Your task to perform on an android device: Add logitech g pro to the cart on amazon.com Image 0: 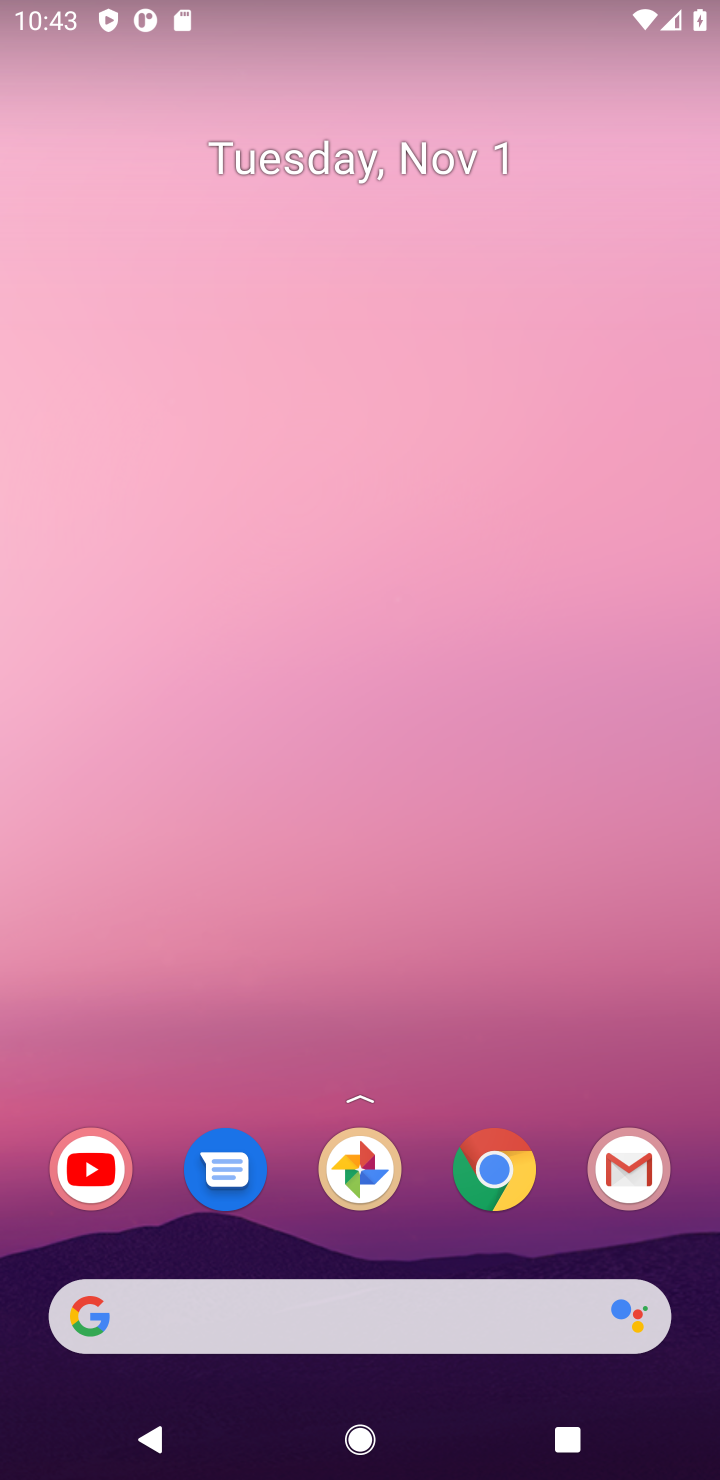
Step 0: click (488, 1163)
Your task to perform on an android device: Add logitech g pro to the cart on amazon.com Image 1: 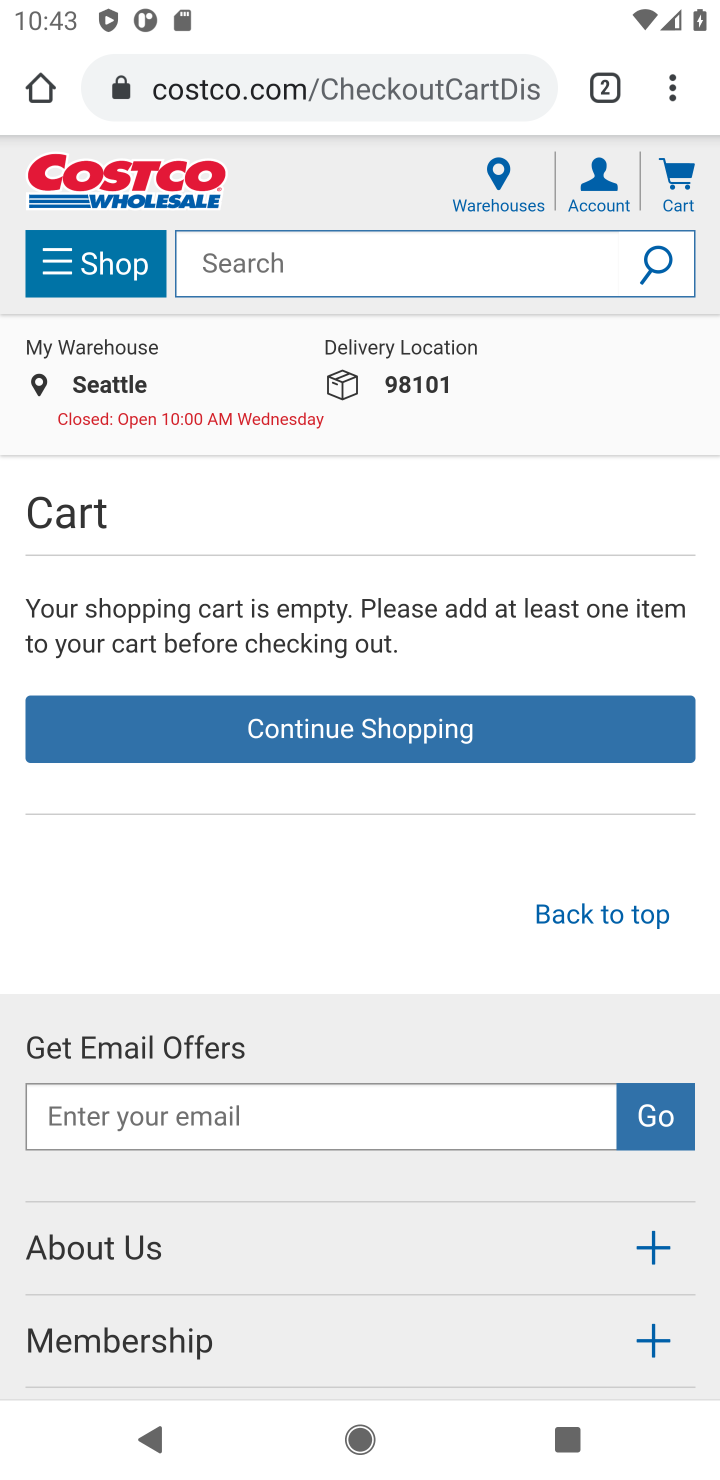
Step 1: click (457, 69)
Your task to perform on an android device: Add logitech g pro to the cart on amazon.com Image 2: 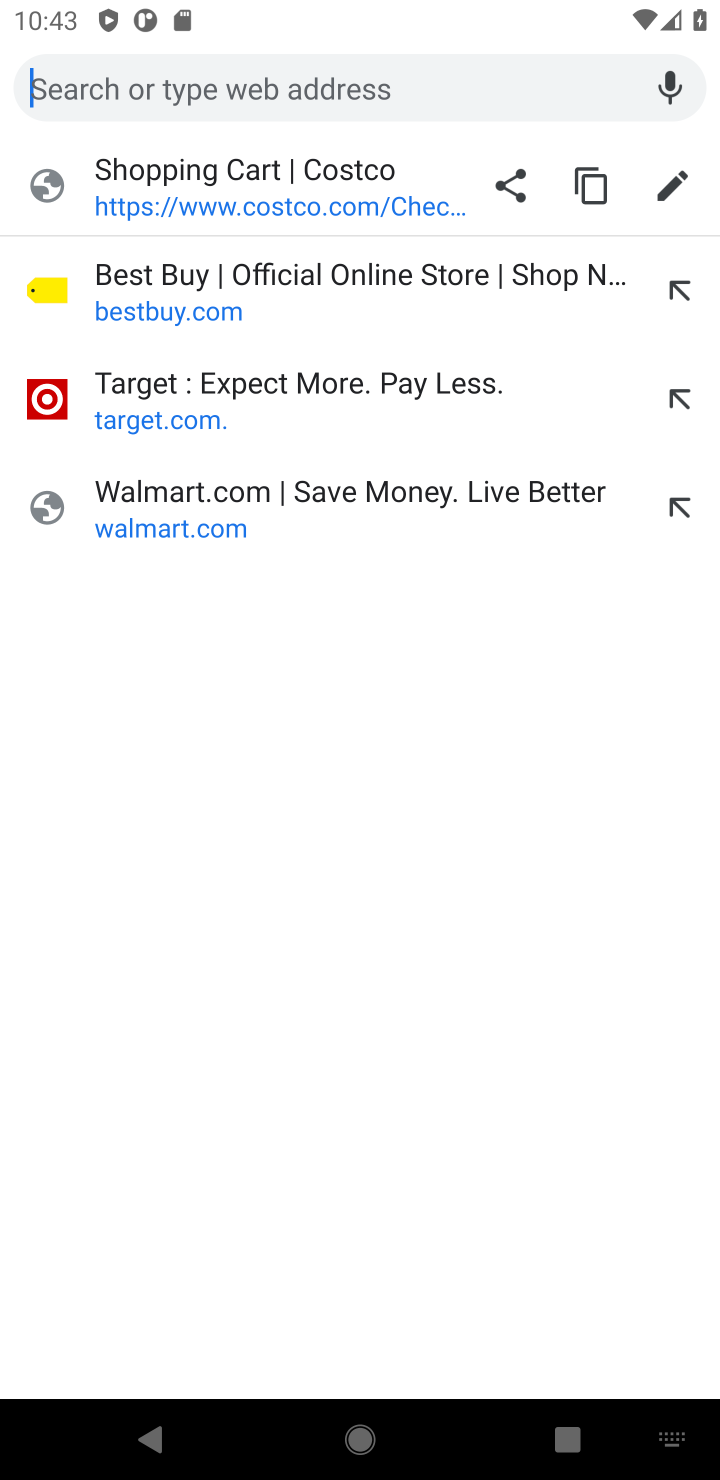
Step 2: type "amazon.com"
Your task to perform on an android device: Add logitech g pro to the cart on amazon.com Image 3: 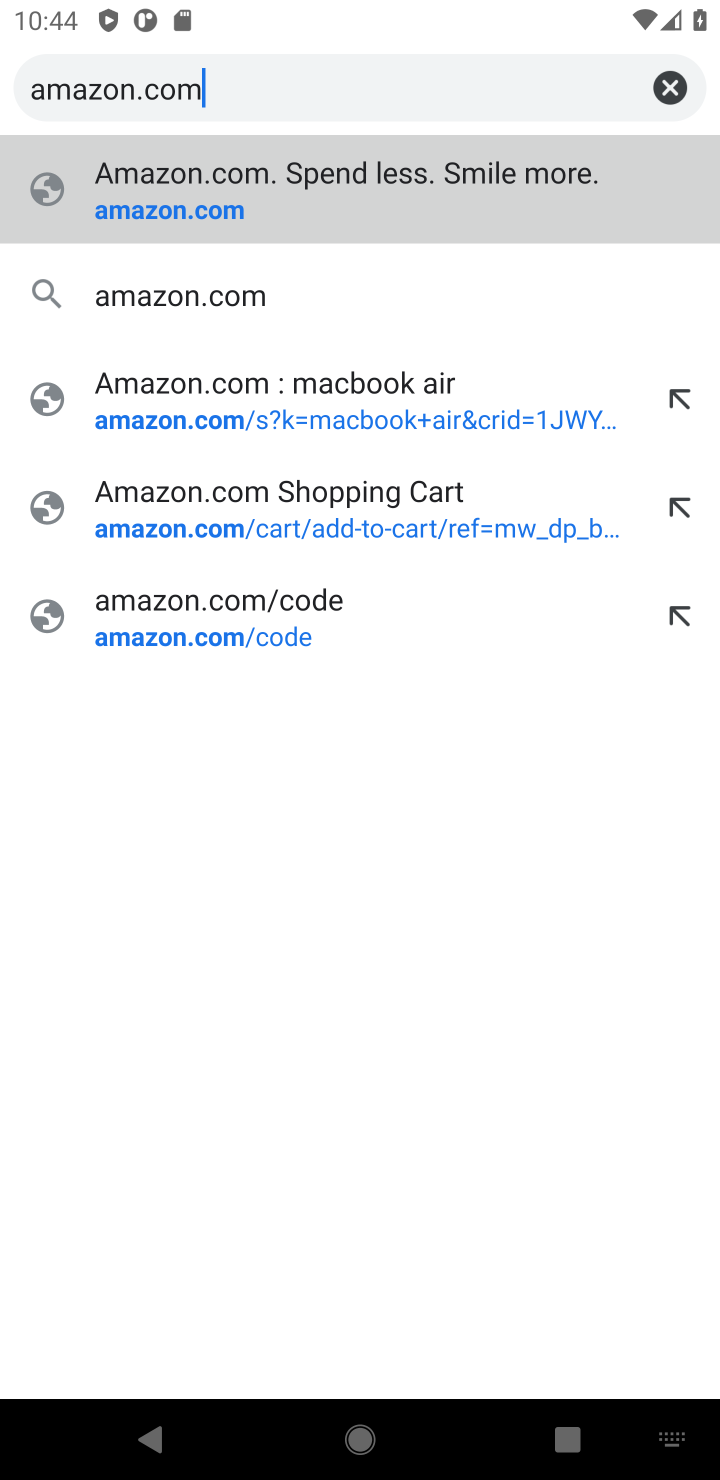
Step 3: click (228, 296)
Your task to perform on an android device: Add logitech g pro to the cart on amazon.com Image 4: 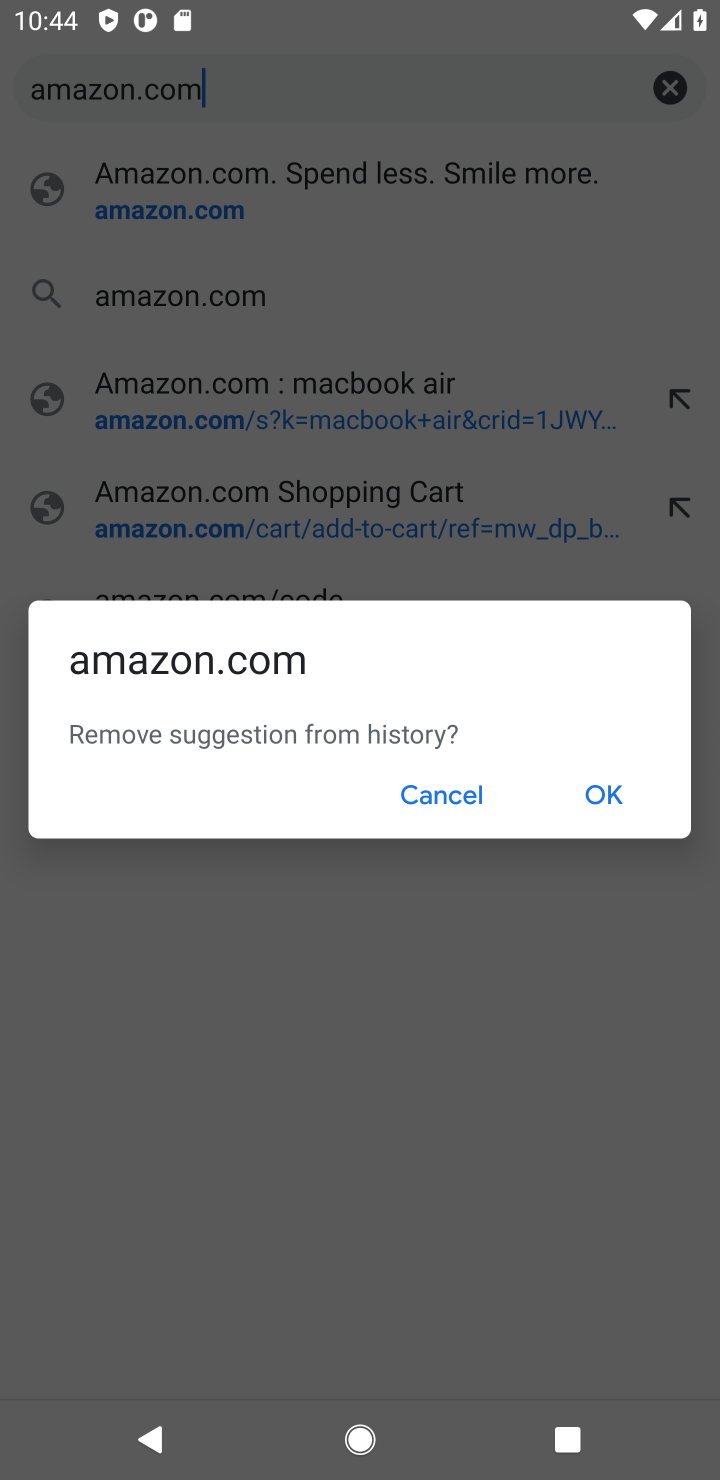
Step 4: click (584, 993)
Your task to perform on an android device: Add logitech g pro to the cart on amazon.com Image 5: 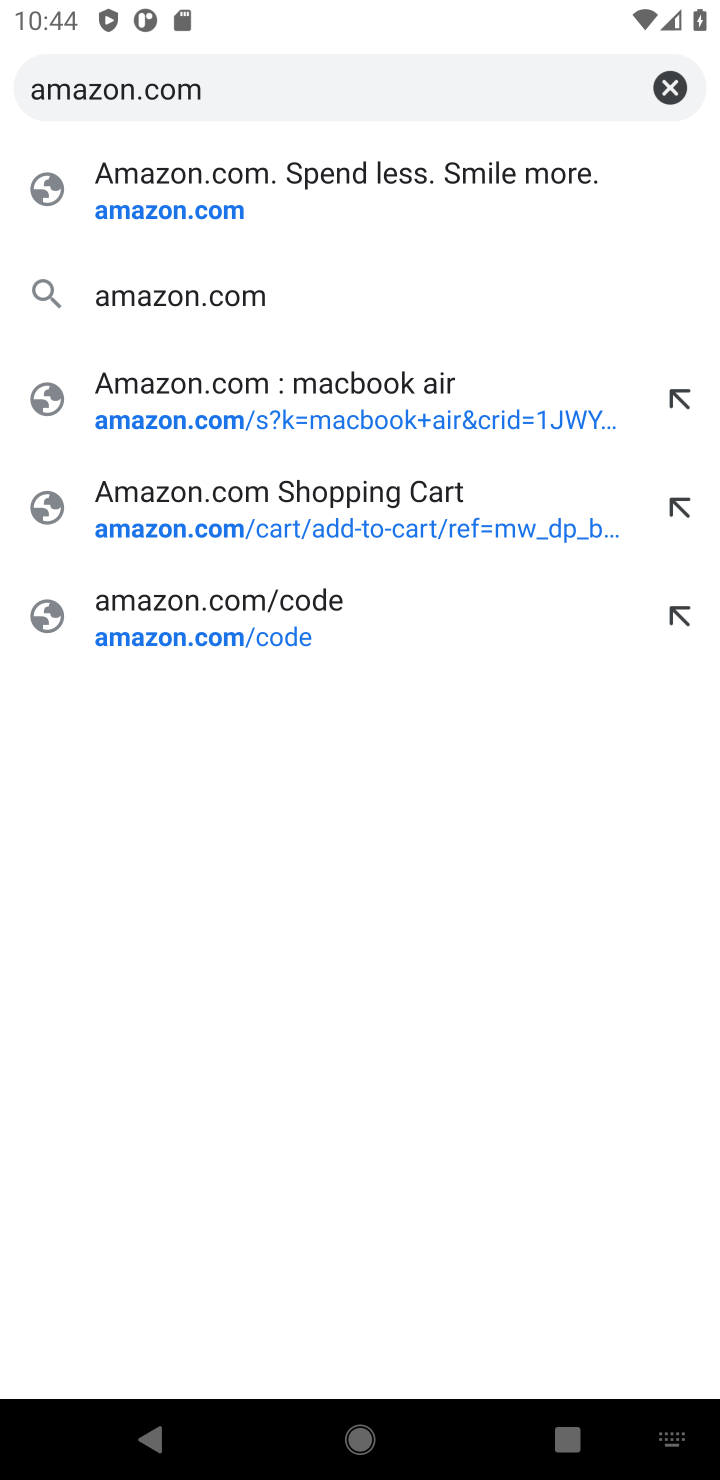
Step 5: click (239, 286)
Your task to perform on an android device: Add logitech g pro to the cart on amazon.com Image 6: 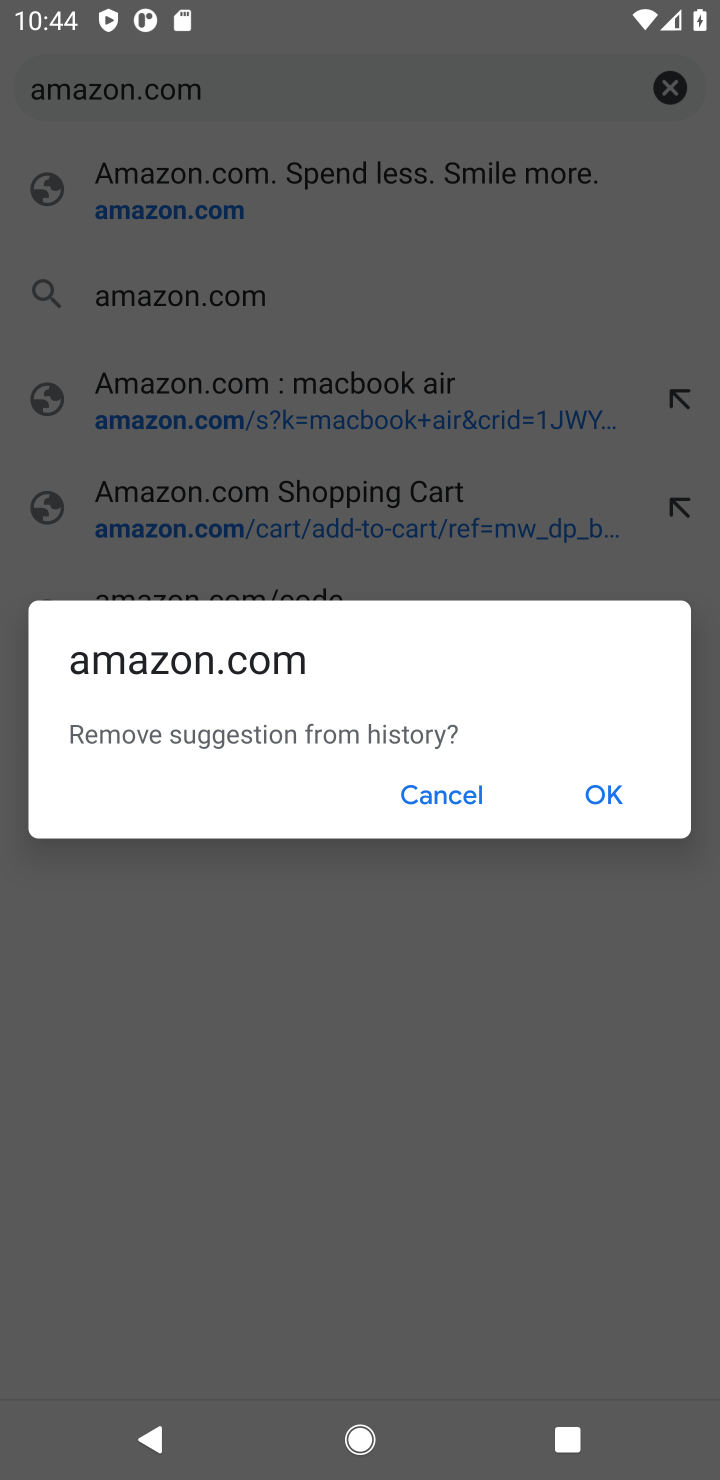
Step 6: click (615, 791)
Your task to perform on an android device: Add logitech g pro to the cart on amazon.com Image 7: 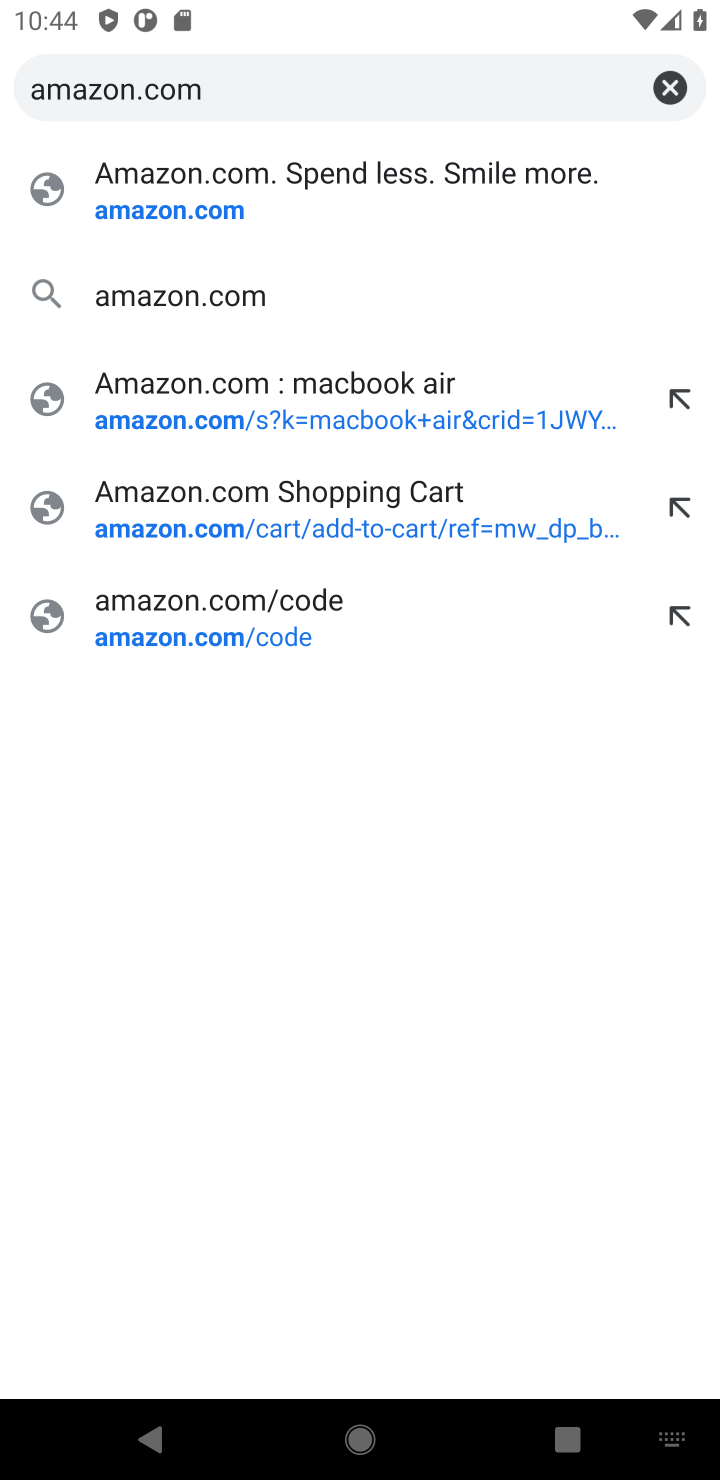
Step 7: click (226, 287)
Your task to perform on an android device: Add logitech g pro to the cart on amazon.com Image 8: 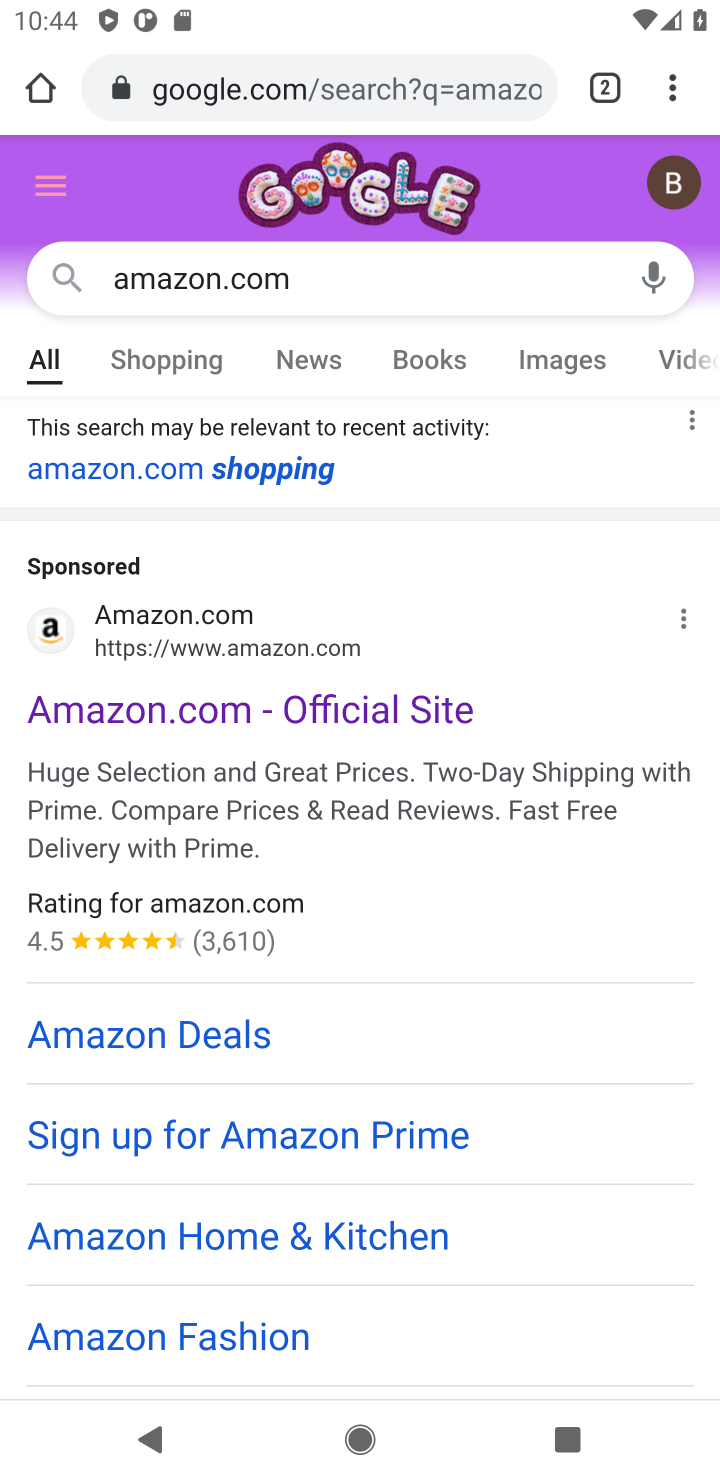
Step 8: drag from (509, 1023) to (463, 533)
Your task to perform on an android device: Add logitech g pro to the cart on amazon.com Image 9: 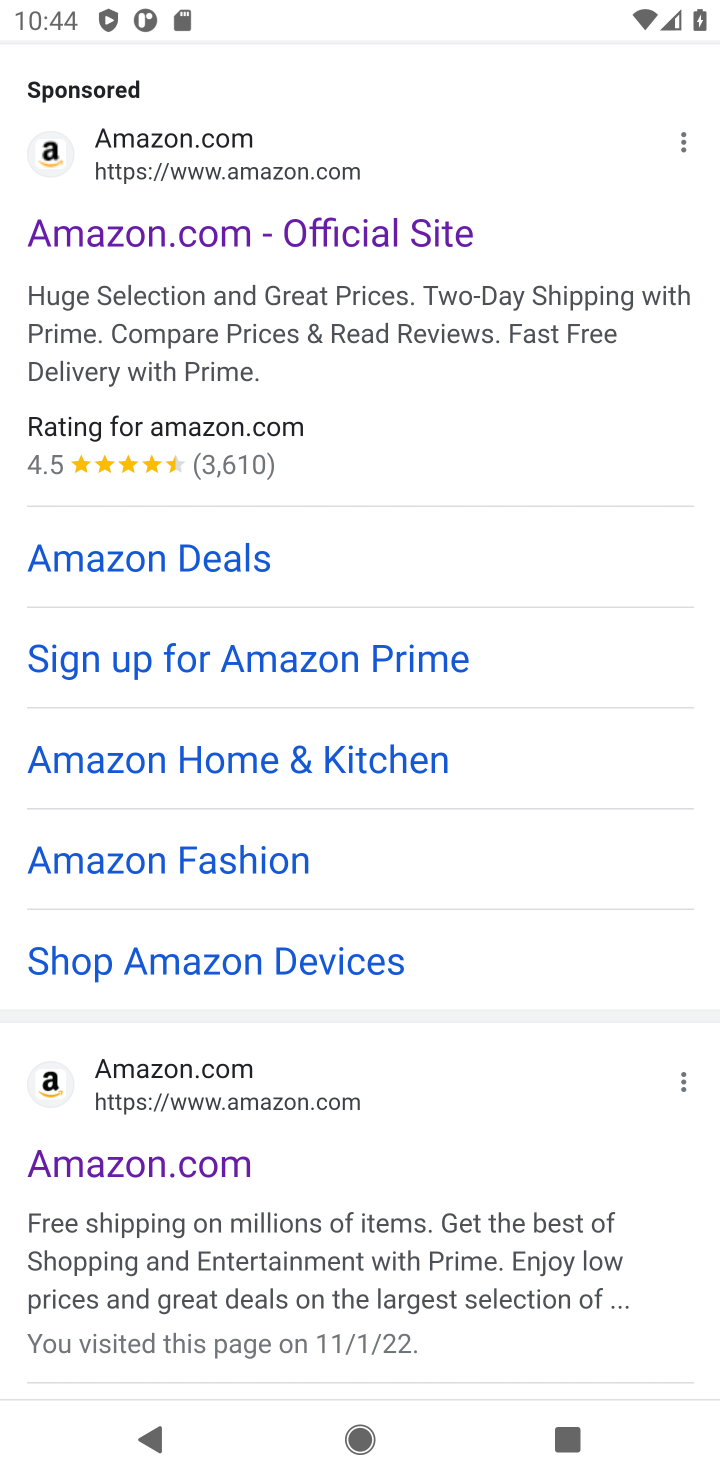
Step 9: click (222, 1083)
Your task to perform on an android device: Add logitech g pro to the cart on amazon.com Image 10: 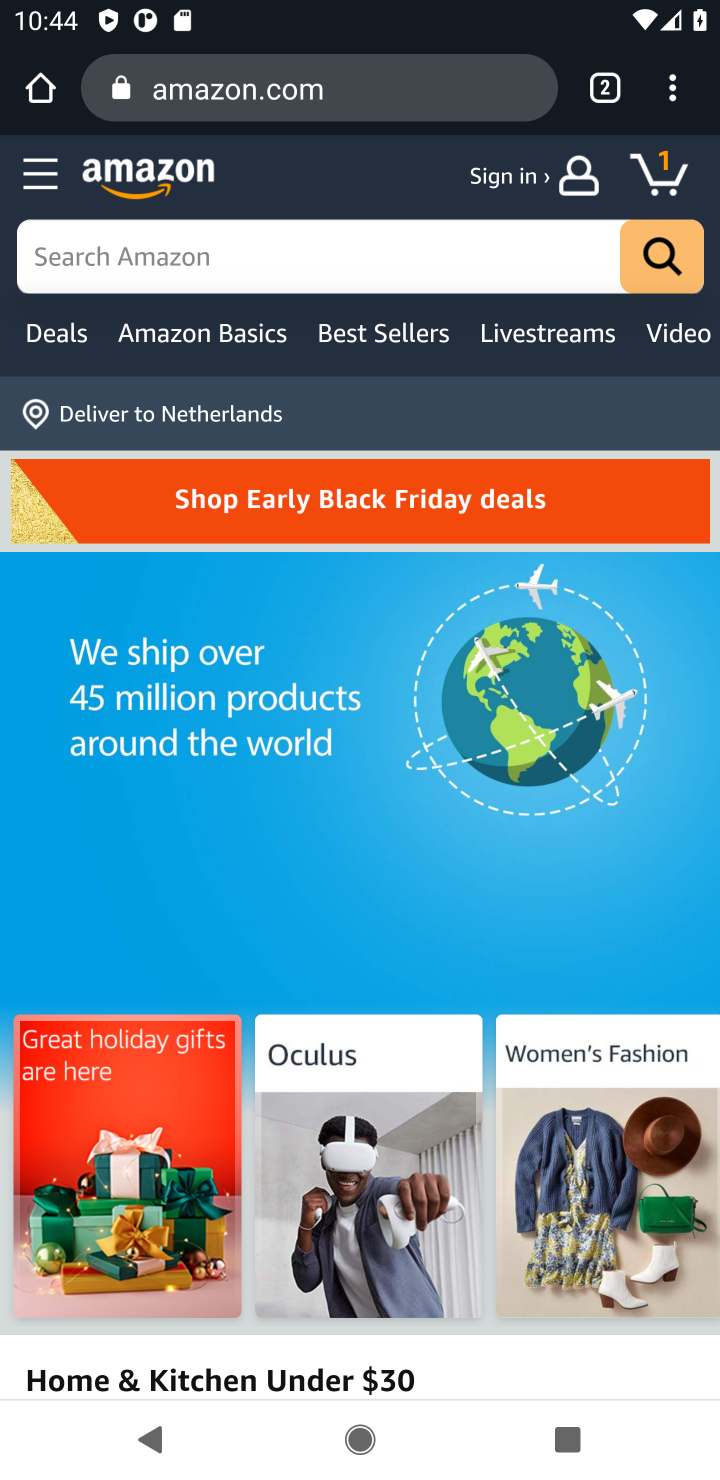
Step 10: click (263, 270)
Your task to perform on an android device: Add logitech g pro to the cart on amazon.com Image 11: 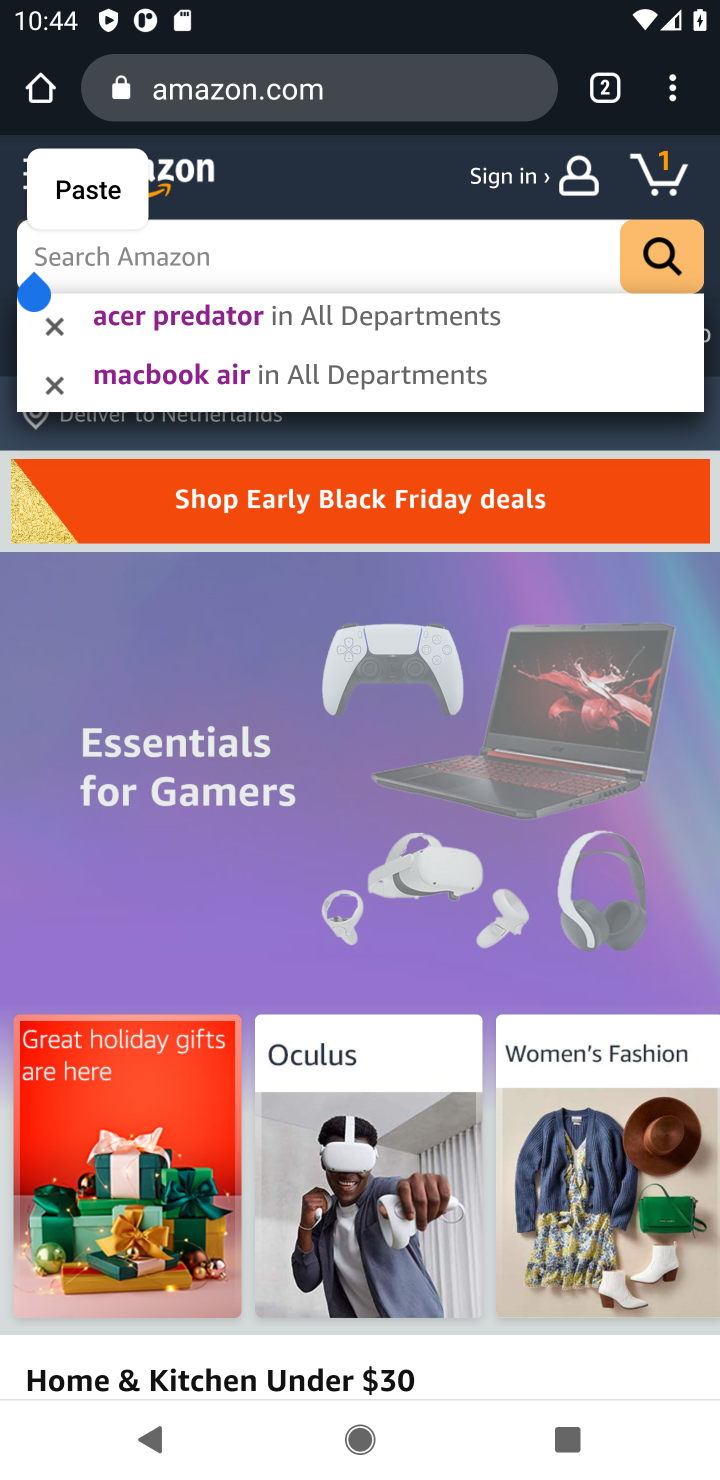
Step 11: type " logitech g pro"
Your task to perform on an android device: Add logitech g pro to the cart on amazon.com Image 12: 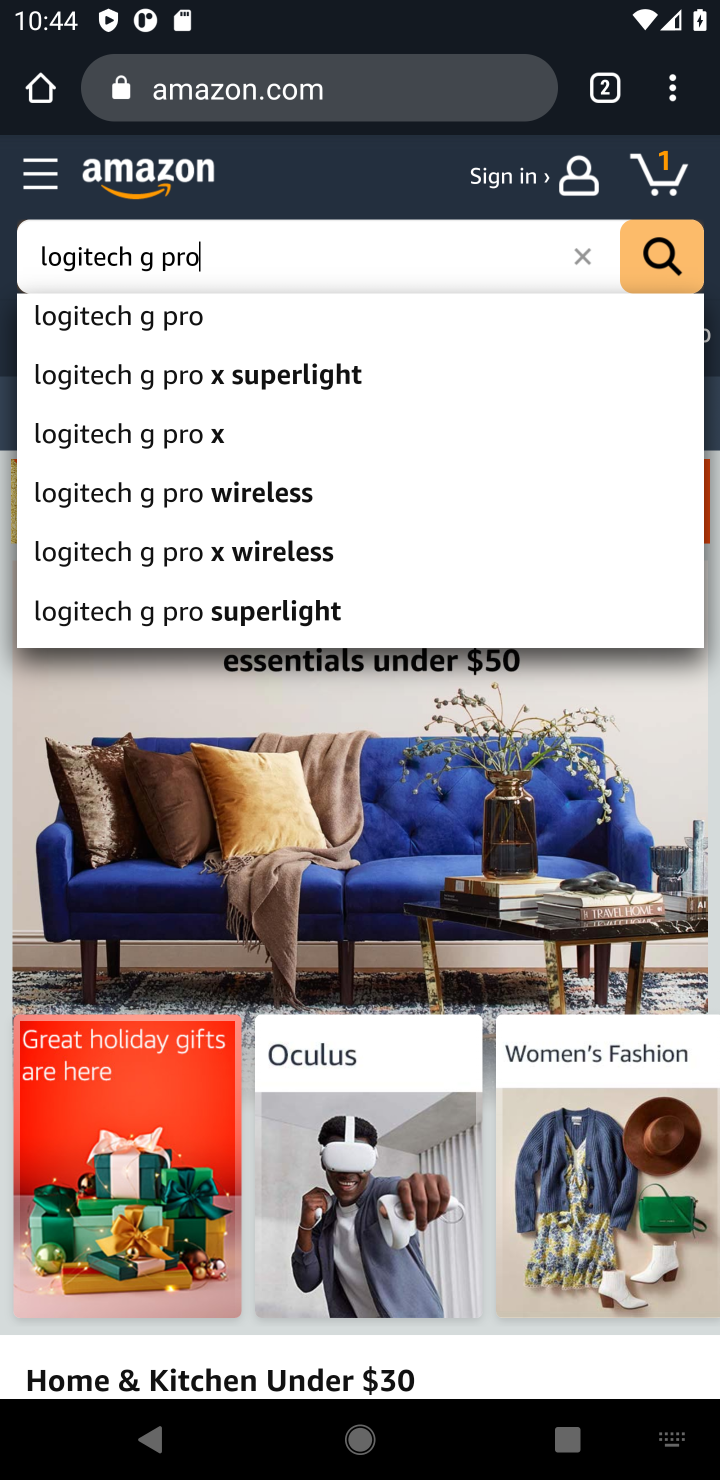
Step 12: click (146, 310)
Your task to perform on an android device: Add logitech g pro to the cart on amazon.com Image 13: 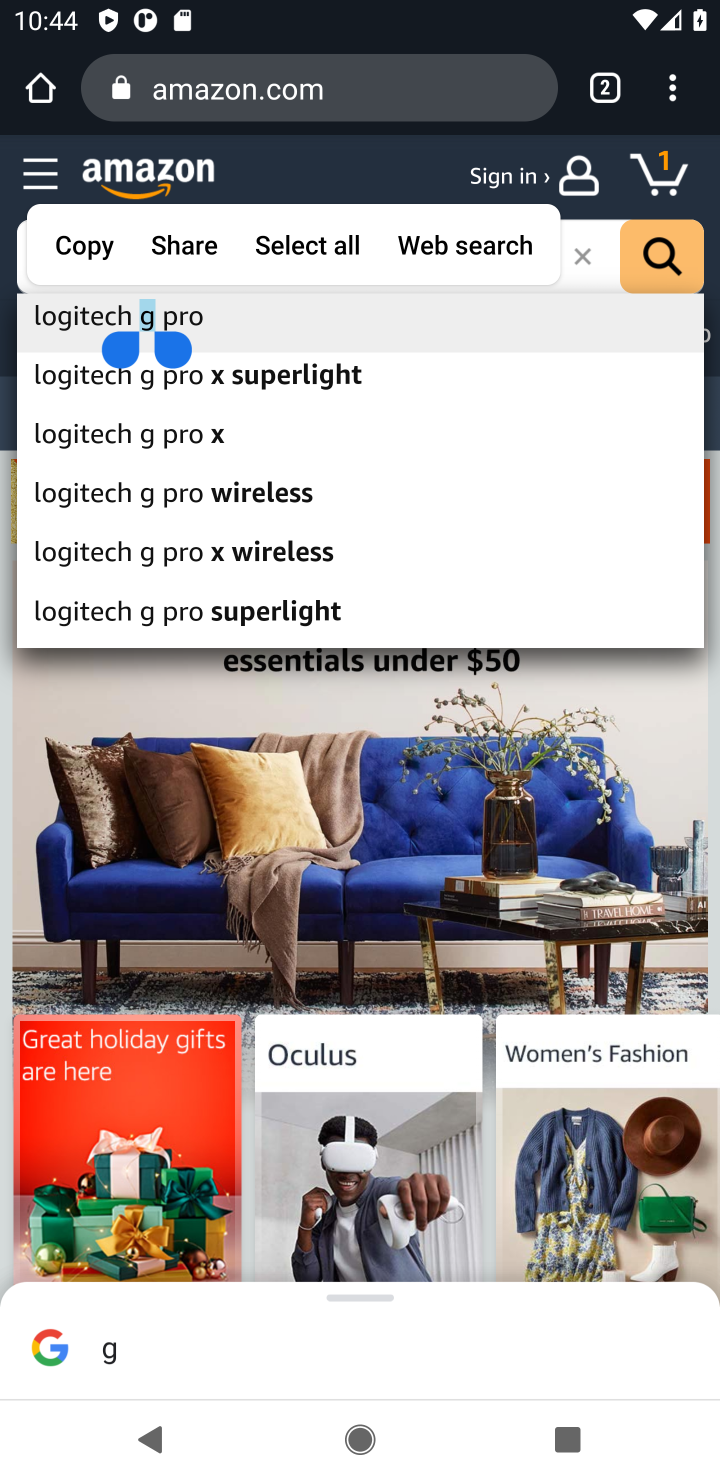
Step 13: click (178, 309)
Your task to perform on an android device: Add logitech g pro to the cart on amazon.com Image 14: 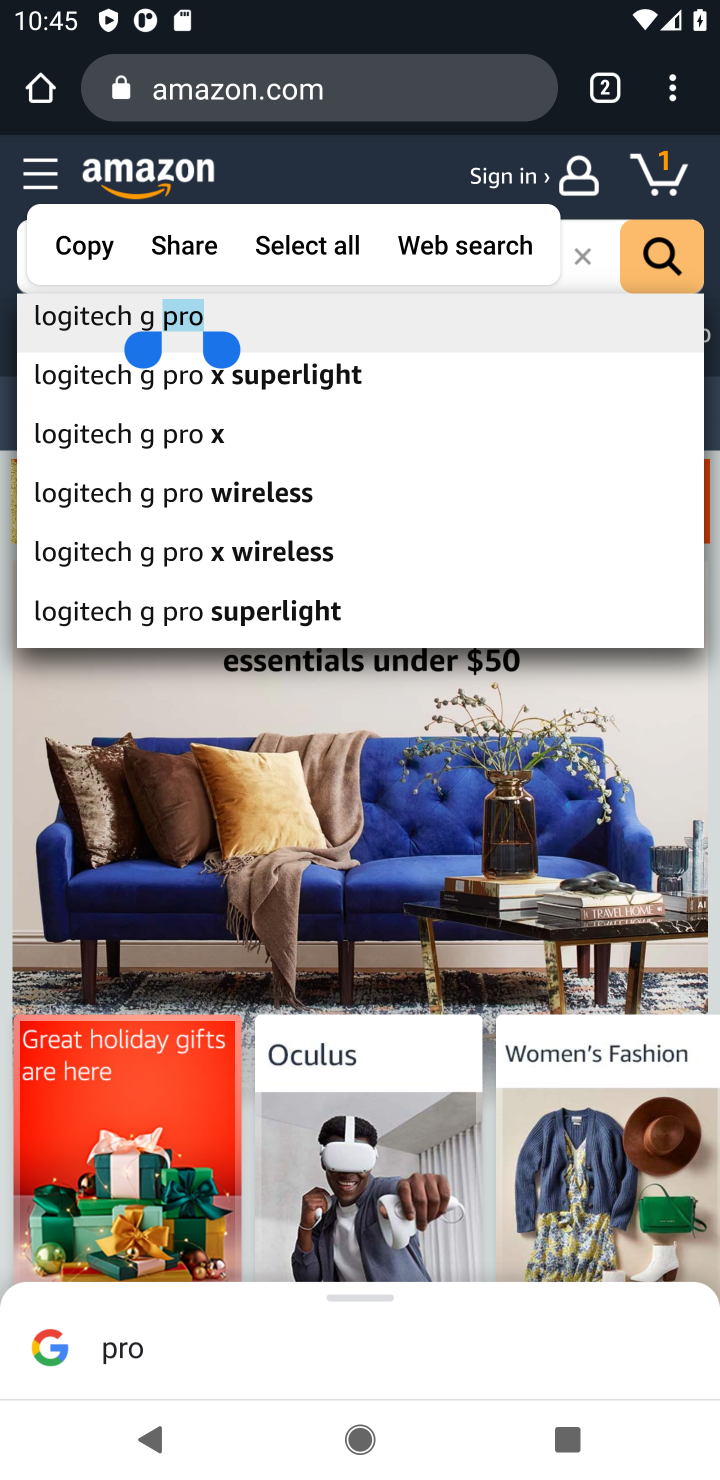
Step 14: click (715, 674)
Your task to perform on an android device: Add logitech g pro to the cart on amazon.com Image 15: 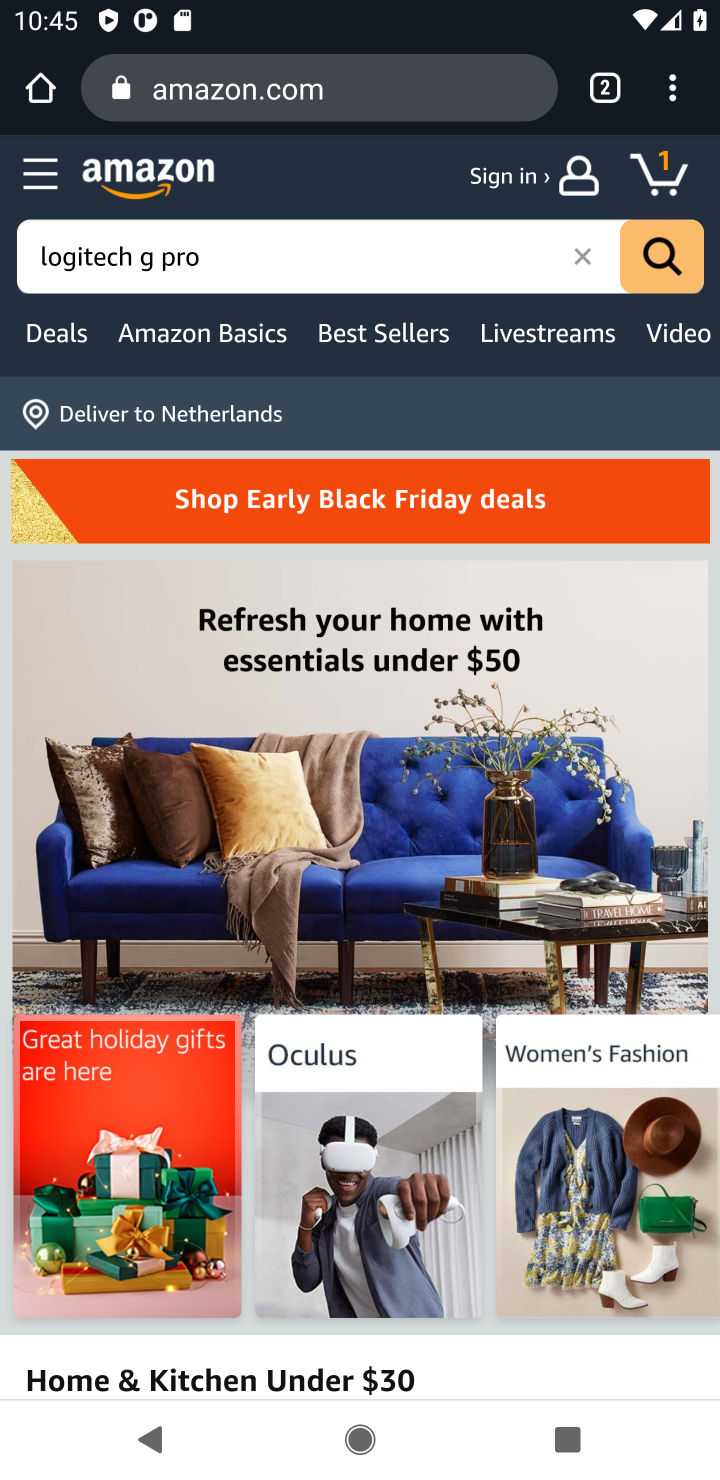
Step 15: click (362, 272)
Your task to perform on an android device: Add logitech g pro to the cart on amazon.com Image 16: 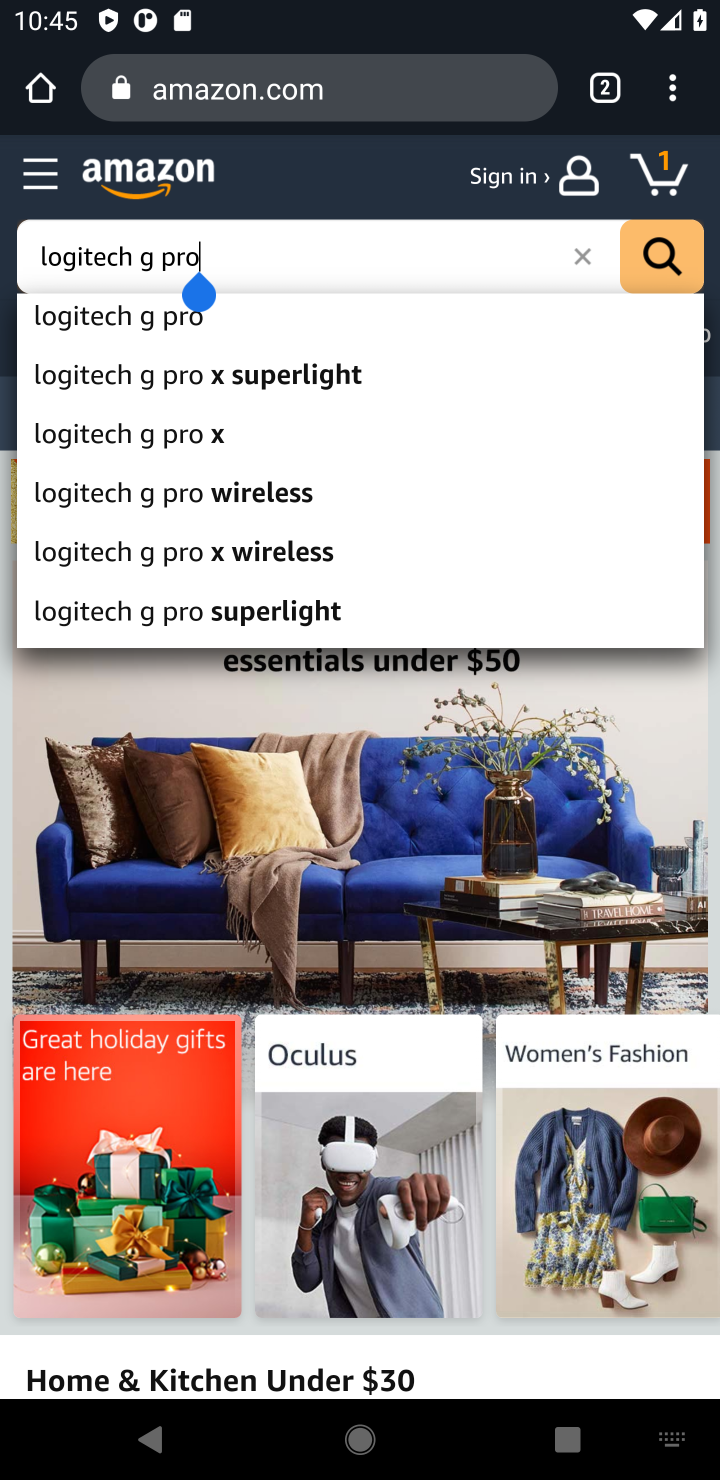
Step 16: click (87, 312)
Your task to perform on an android device: Add logitech g pro to the cart on amazon.com Image 17: 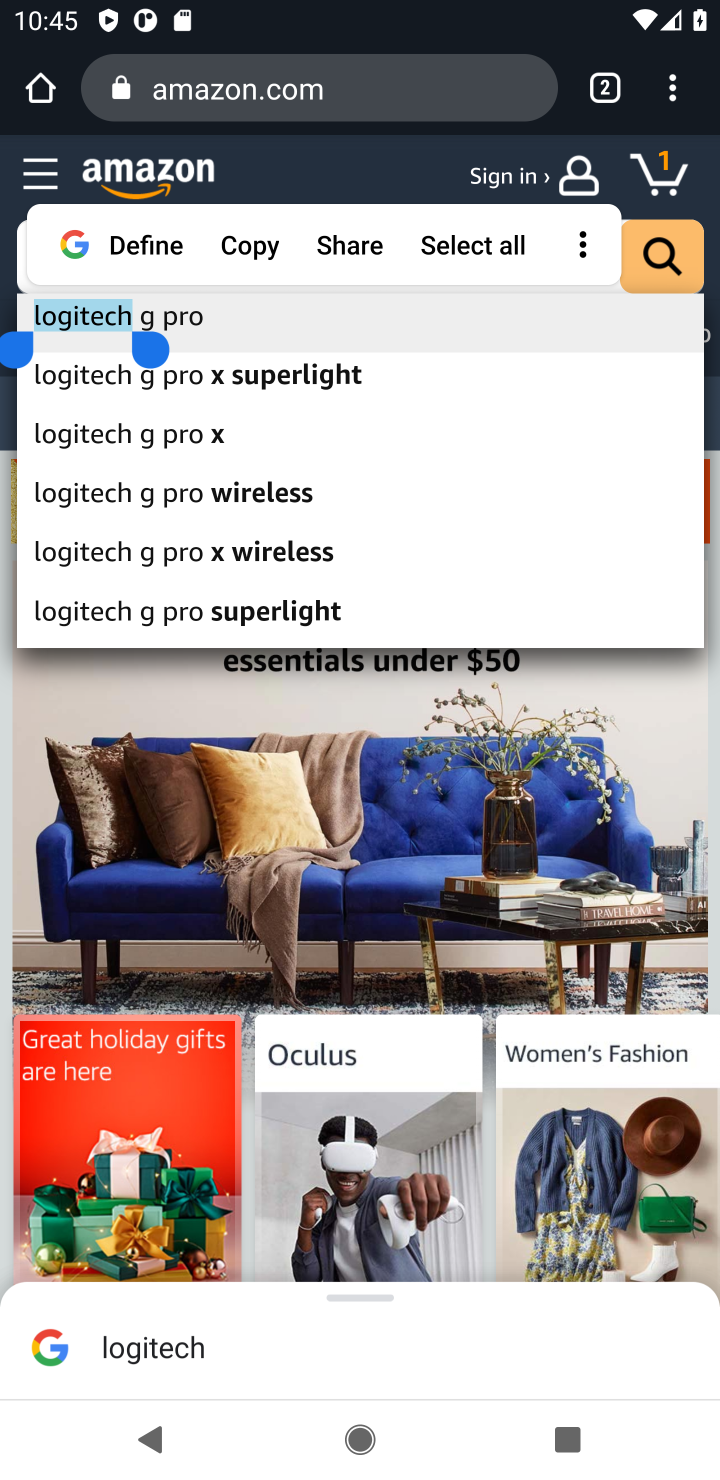
Step 17: click (87, 312)
Your task to perform on an android device: Add logitech g pro to the cart on amazon.com Image 18: 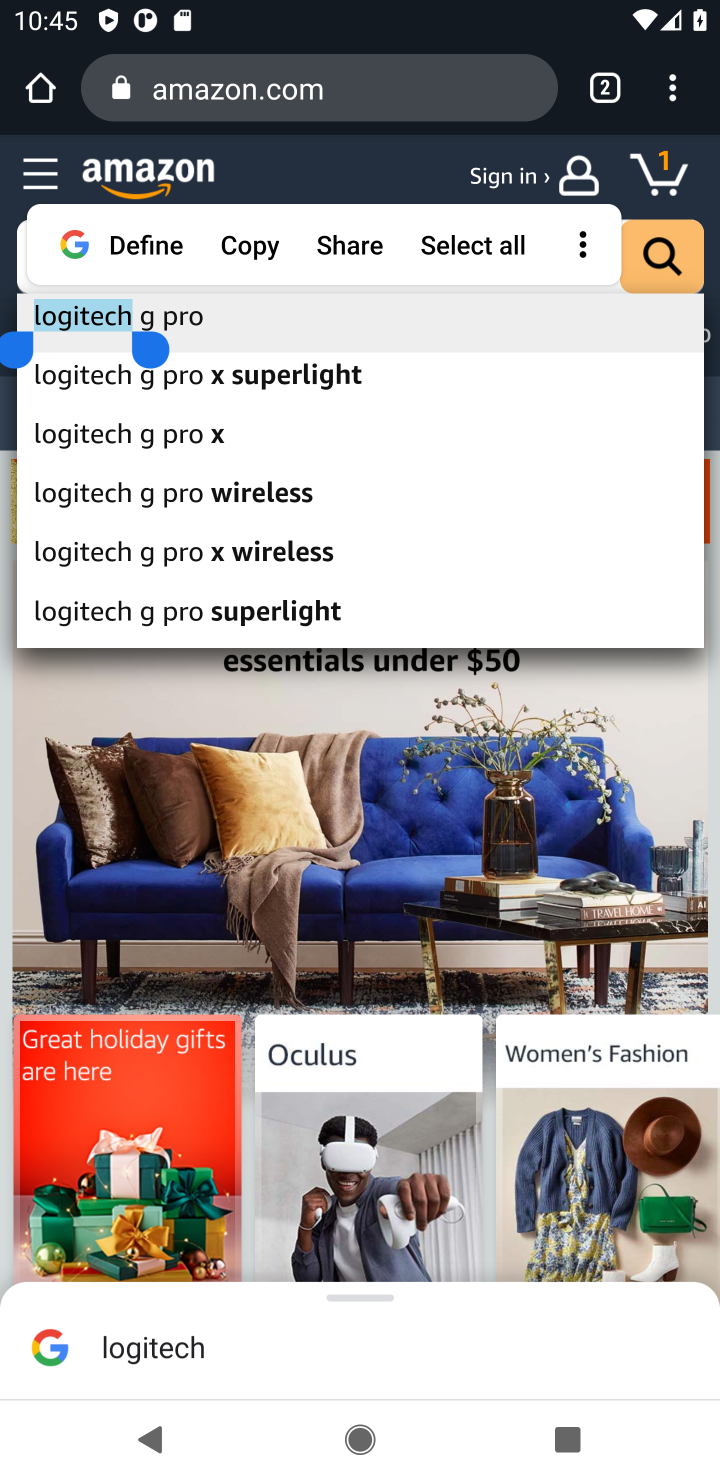
Step 18: click (186, 313)
Your task to perform on an android device: Add logitech g pro to the cart on amazon.com Image 19: 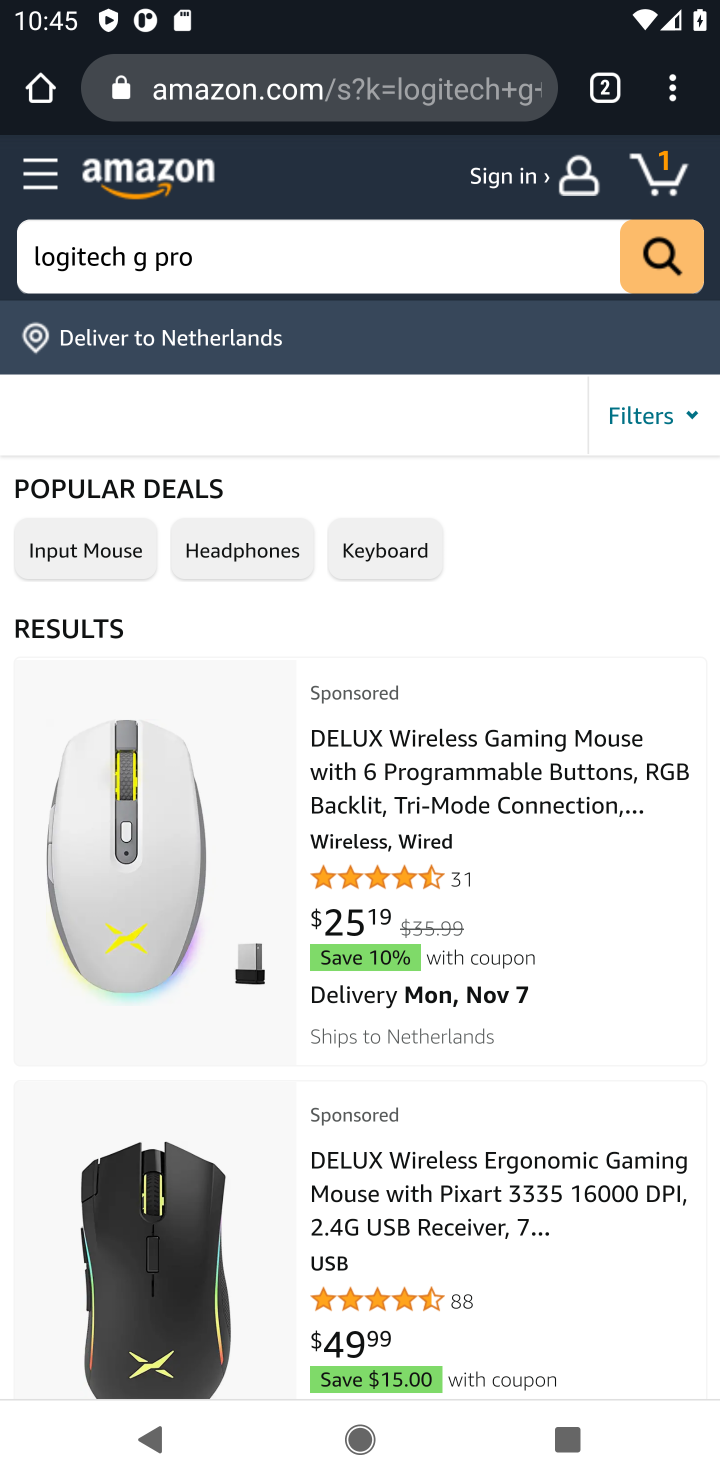
Step 19: drag from (576, 1283) to (552, 799)
Your task to perform on an android device: Add logitech g pro to the cart on amazon.com Image 20: 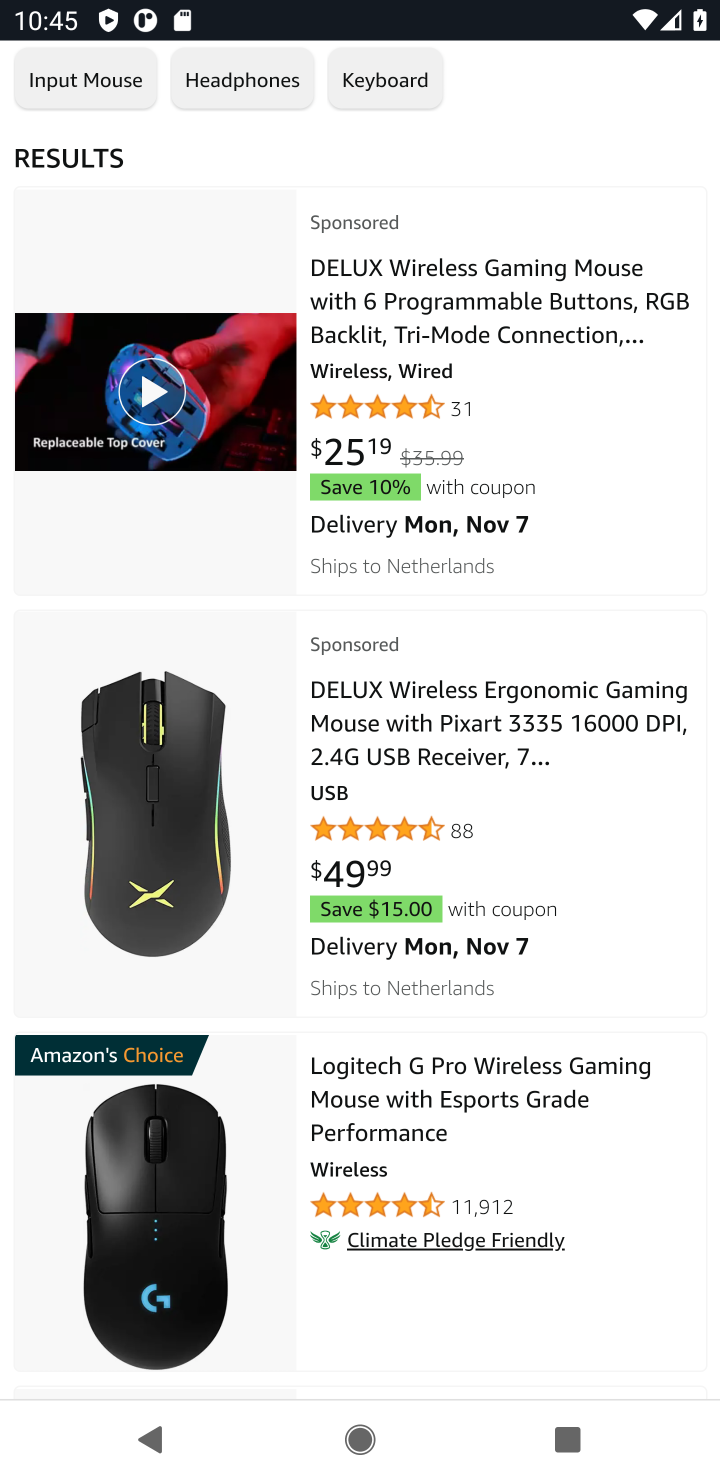
Step 20: click (157, 1164)
Your task to perform on an android device: Add logitech g pro to the cart on amazon.com Image 21: 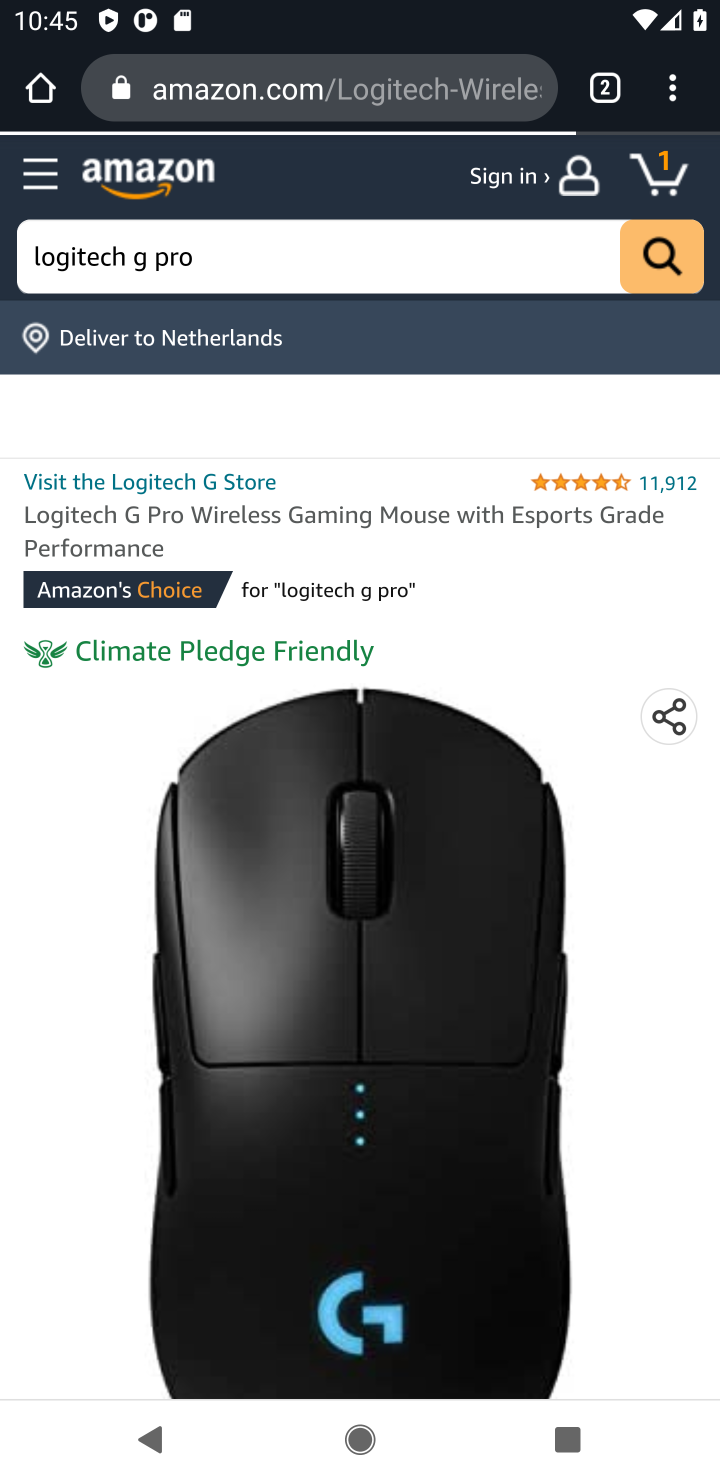
Step 21: drag from (321, 974) to (390, 424)
Your task to perform on an android device: Add logitech g pro to the cart on amazon.com Image 22: 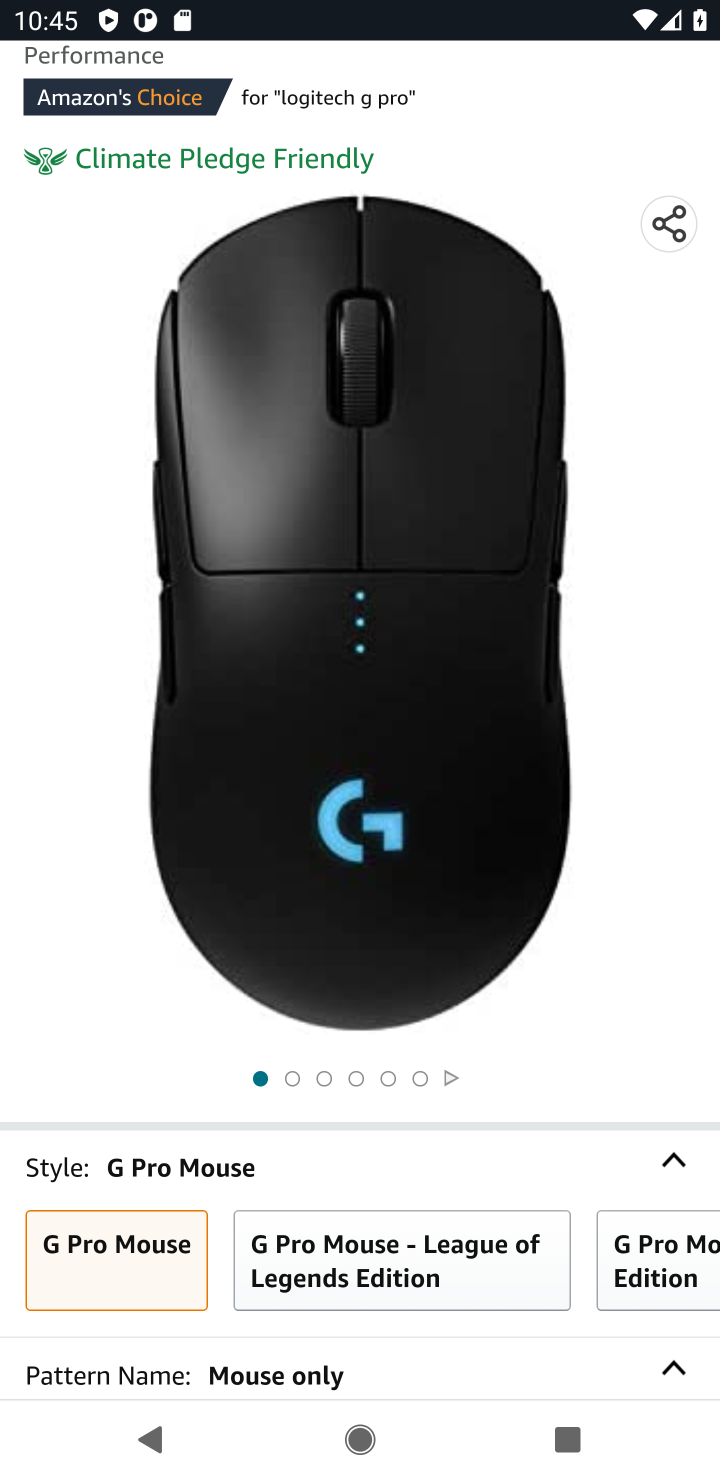
Step 22: drag from (451, 1037) to (430, 444)
Your task to perform on an android device: Add logitech g pro to the cart on amazon.com Image 23: 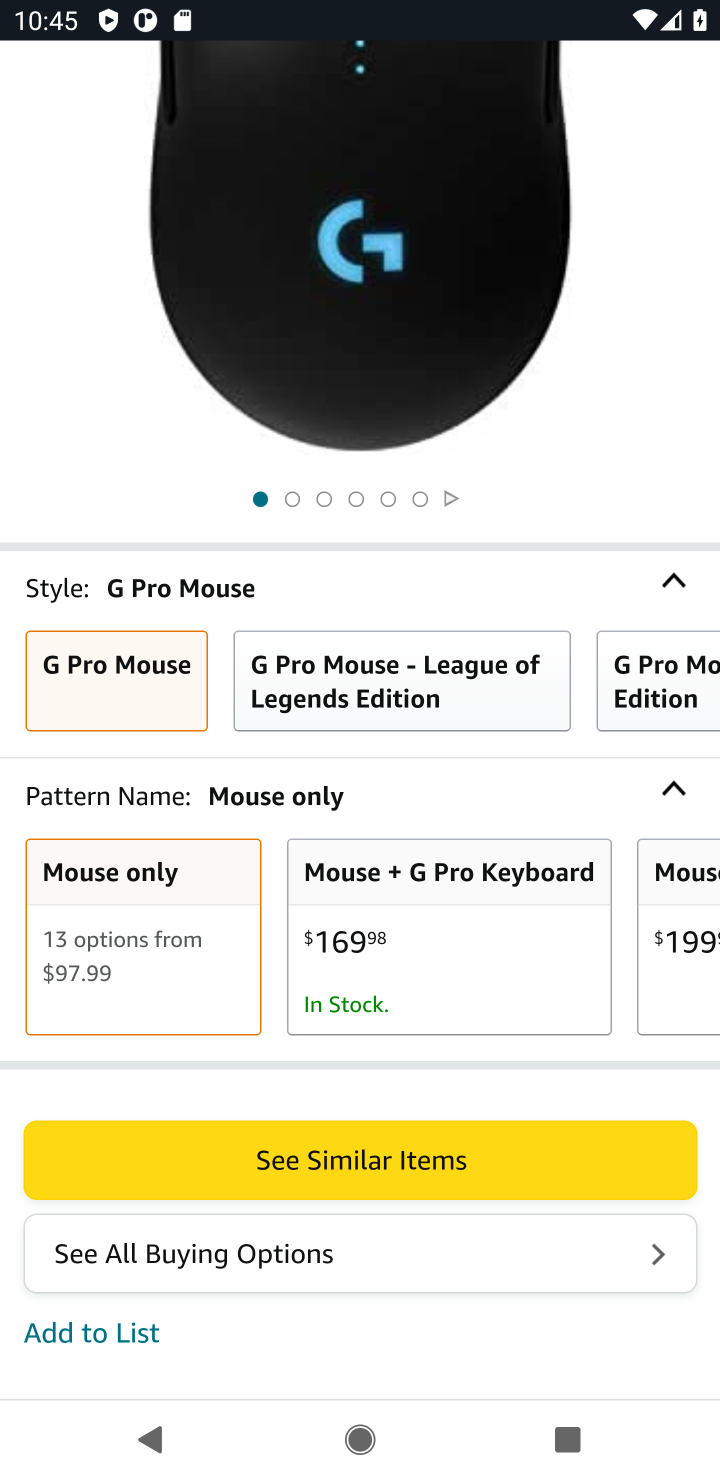
Step 23: press back button
Your task to perform on an android device: Add logitech g pro to the cart on amazon.com Image 24: 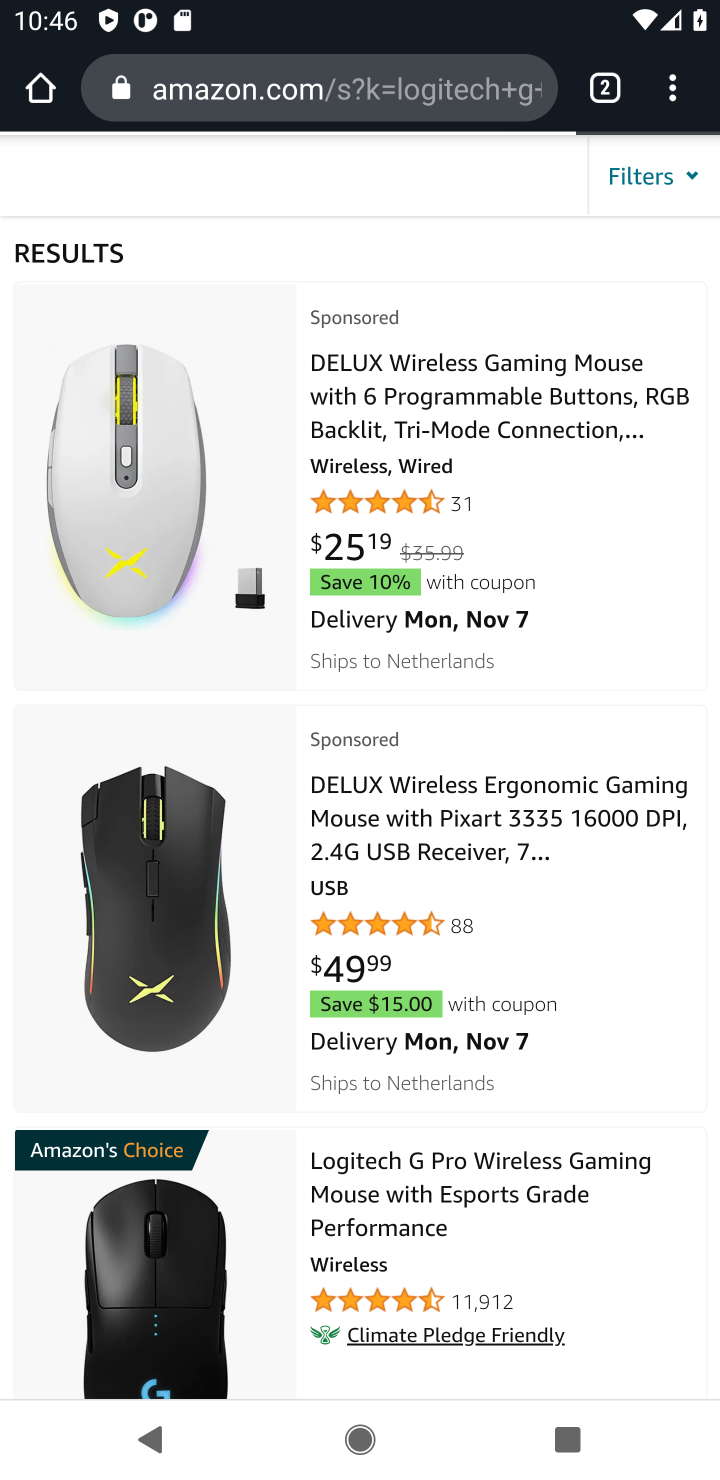
Step 24: drag from (501, 1237) to (499, 652)
Your task to perform on an android device: Add logitech g pro to the cart on amazon.com Image 25: 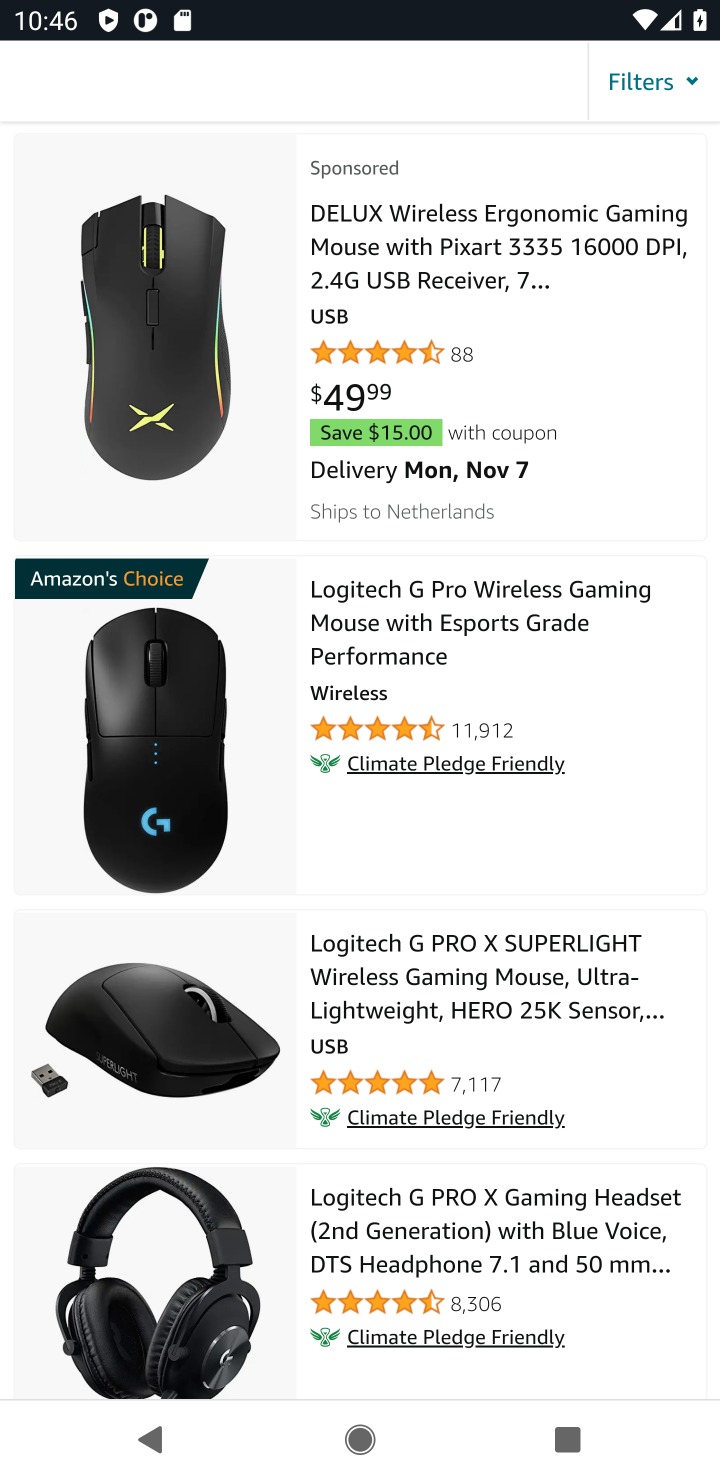
Step 25: click (132, 754)
Your task to perform on an android device: Add logitech g pro to the cart on amazon.com Image 26: 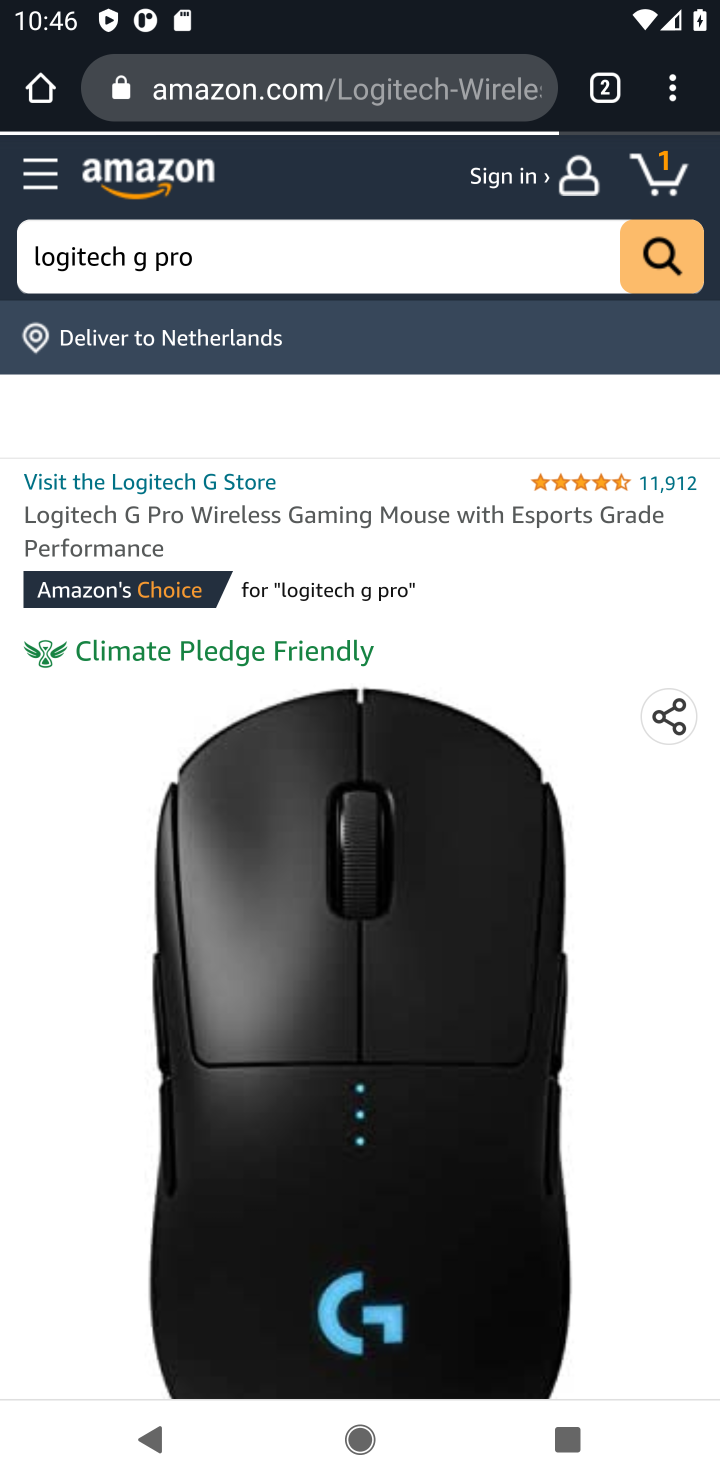
Step 26: drag from (612, 1236) to (544, 237)
Your task to perform on an android device: Add logitech g pro to the cart on amazon.com Image 27: 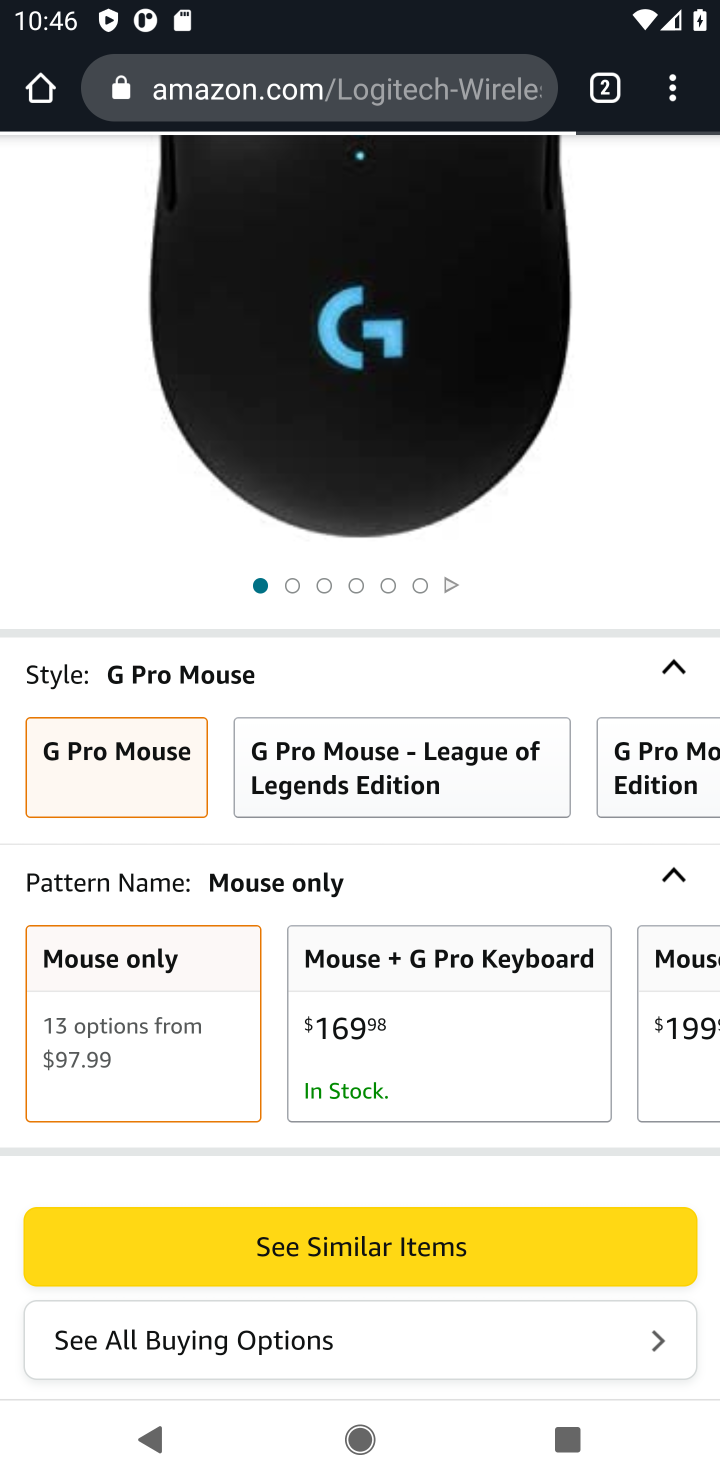
Step 27: press back button
Your task to perform on an android device: Add logitech g pro to the cart on amazon.com Image 28: 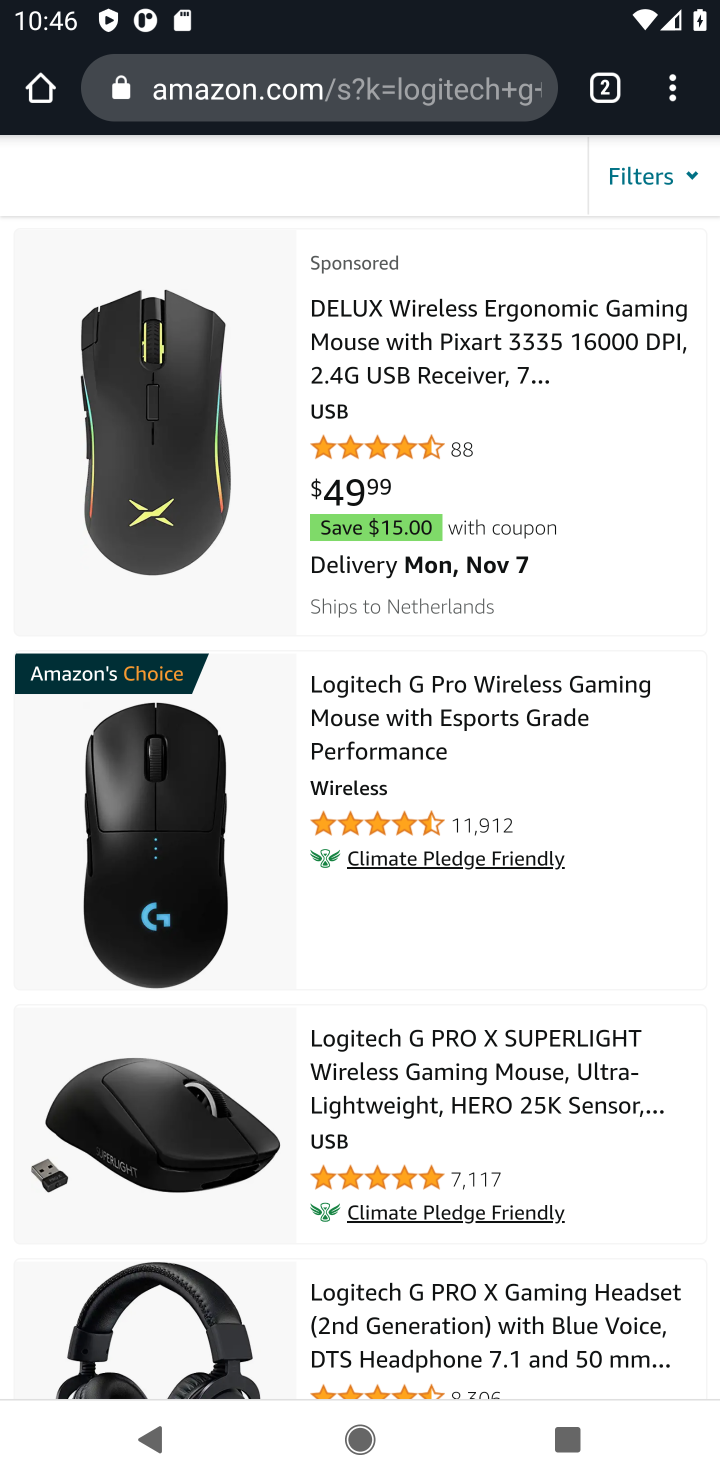
Step 28: click (175, 1146)
Your task to perform on an android device: Add logitech g pro to the cart on amazon.com Image 29: 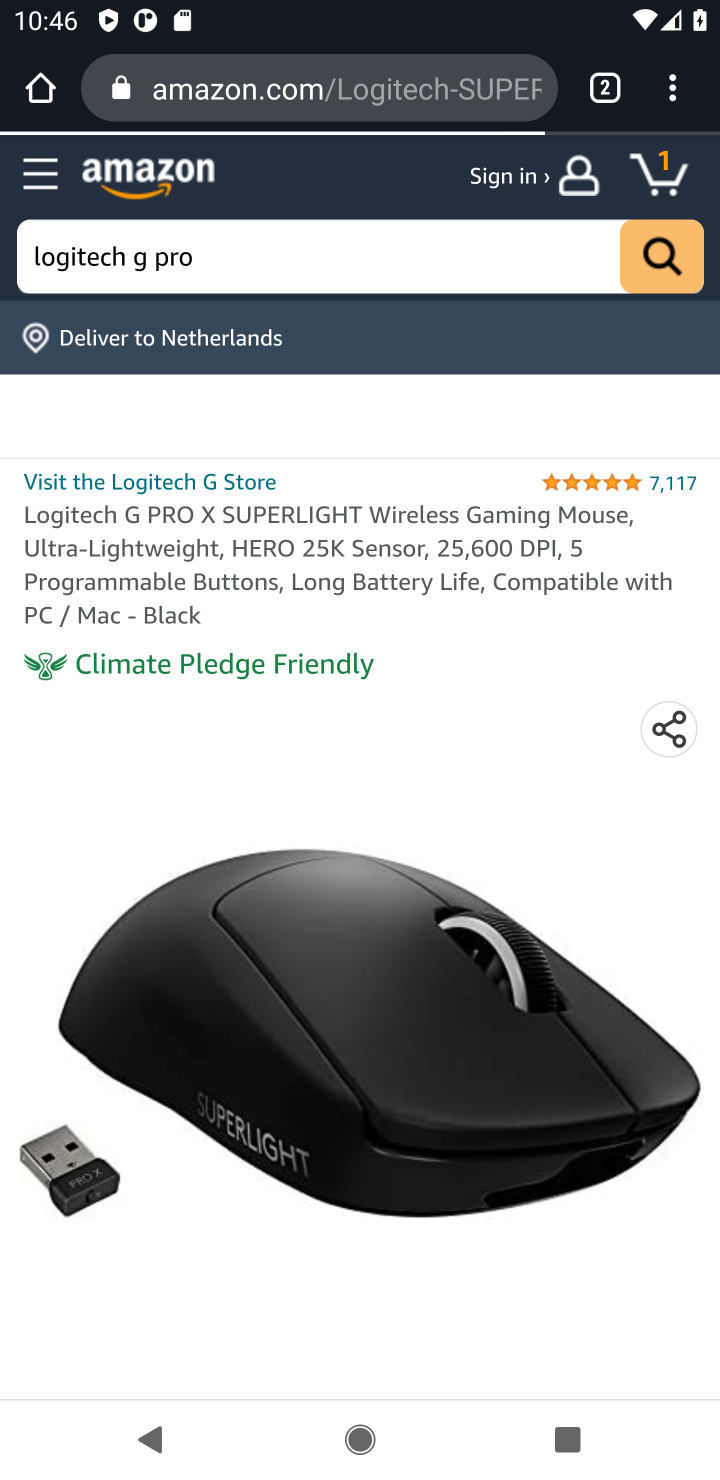
Step 29: drag from (608, 1289) to (535, 174)
Your task to perform on an android device: Add logitech g pro to the cart on amazon.com Image 30: 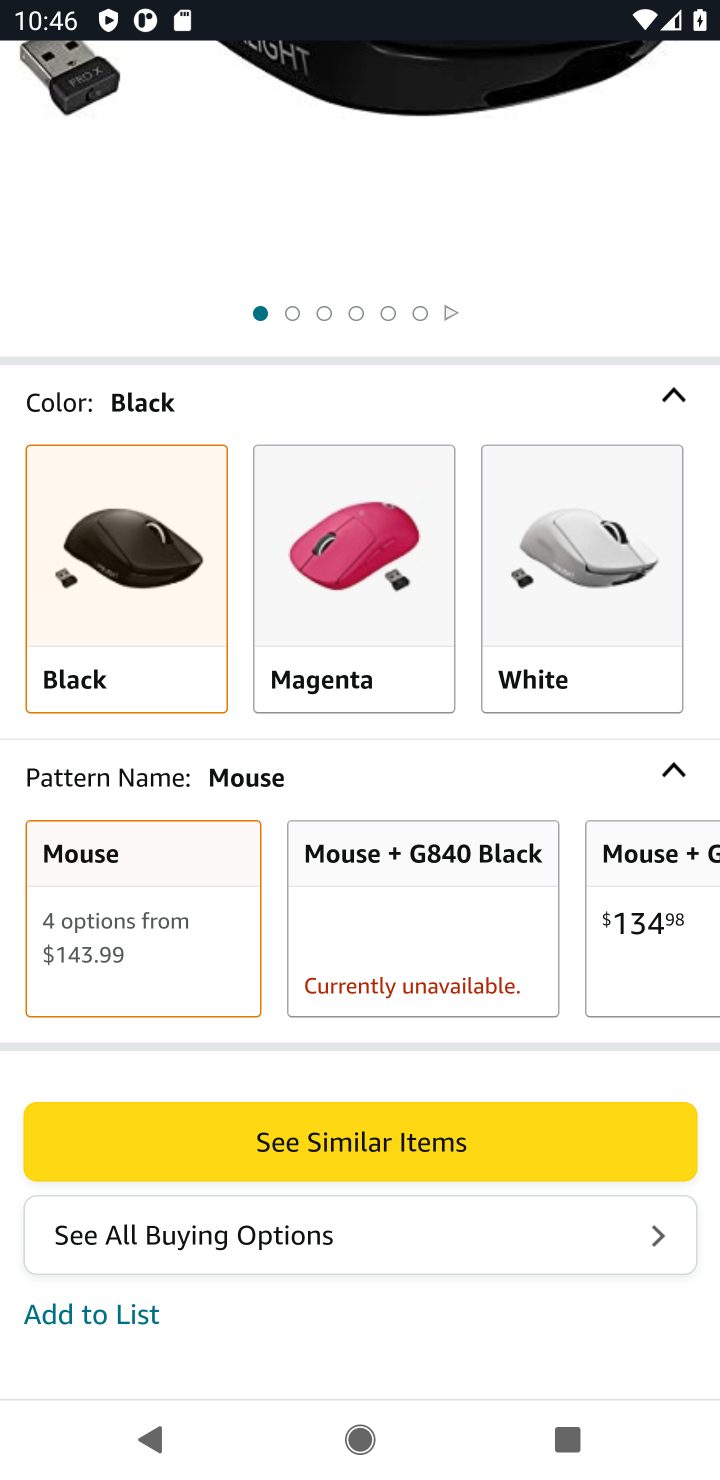
Step 30: press back button
Your task to perform on an android device: Add logitech g pro to the cart on amazon.com Image 31: 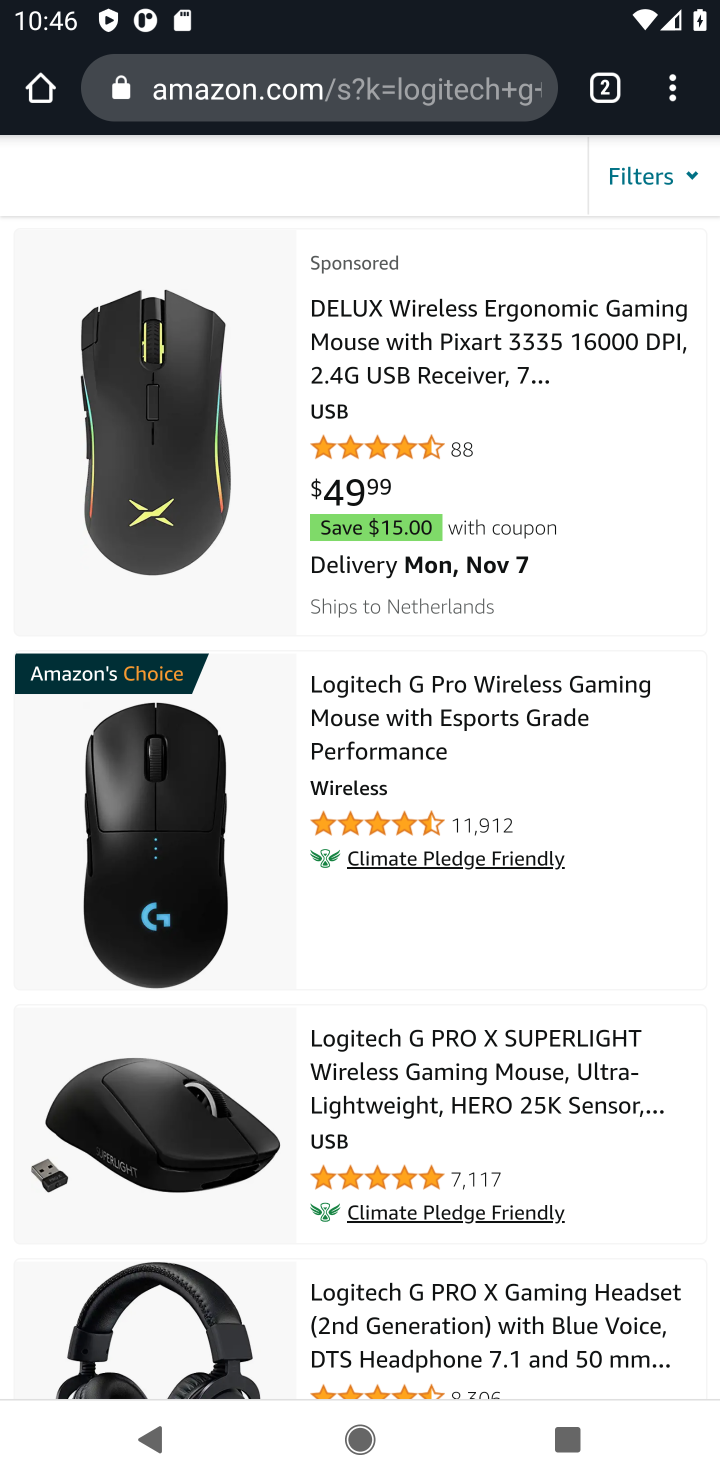
Step 31: drag from (479, 1082) to (473, 323)
Your task to perform on an android device: Add logitech g pro to the cart on amazon.com Image 32: 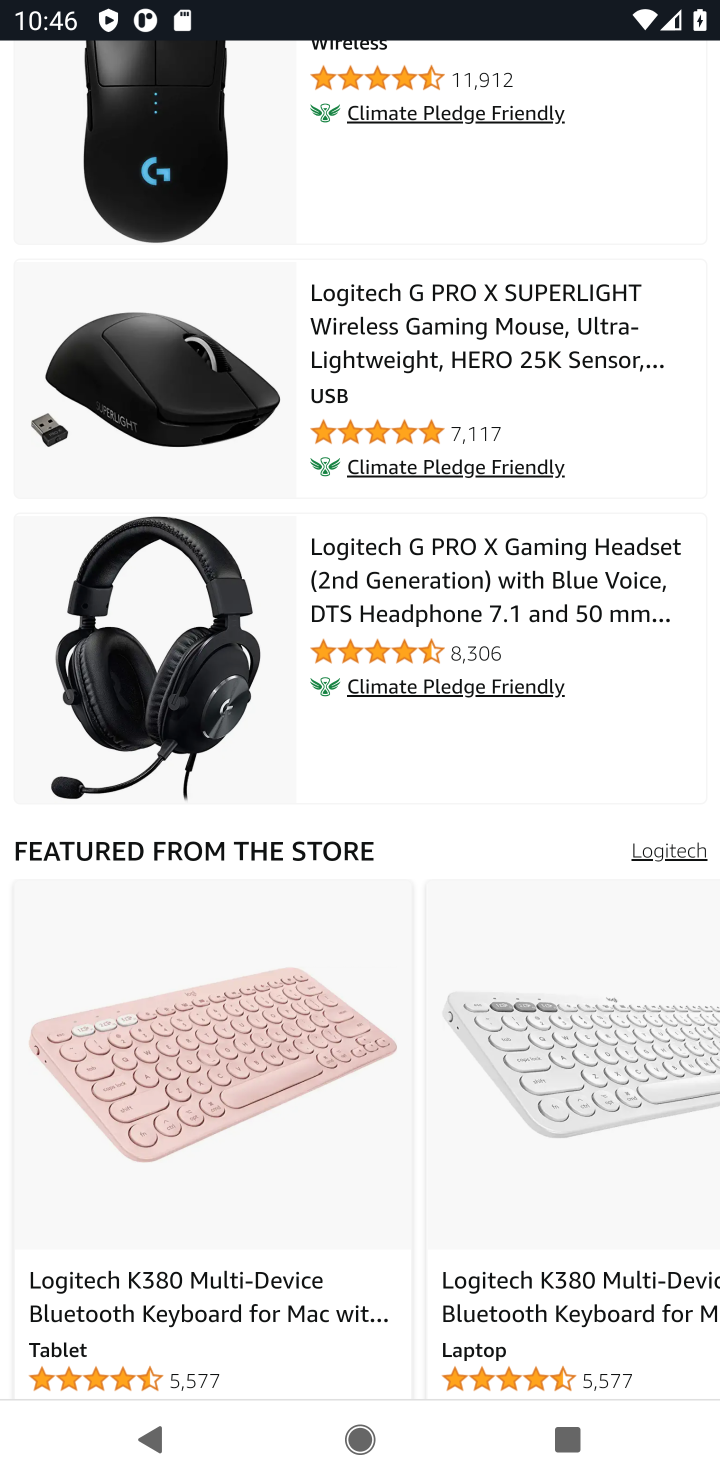
Step 32: click (156, 625)
Your task to perform on an android device: Add logitech g pro to the cart on amazon.com Image 33: 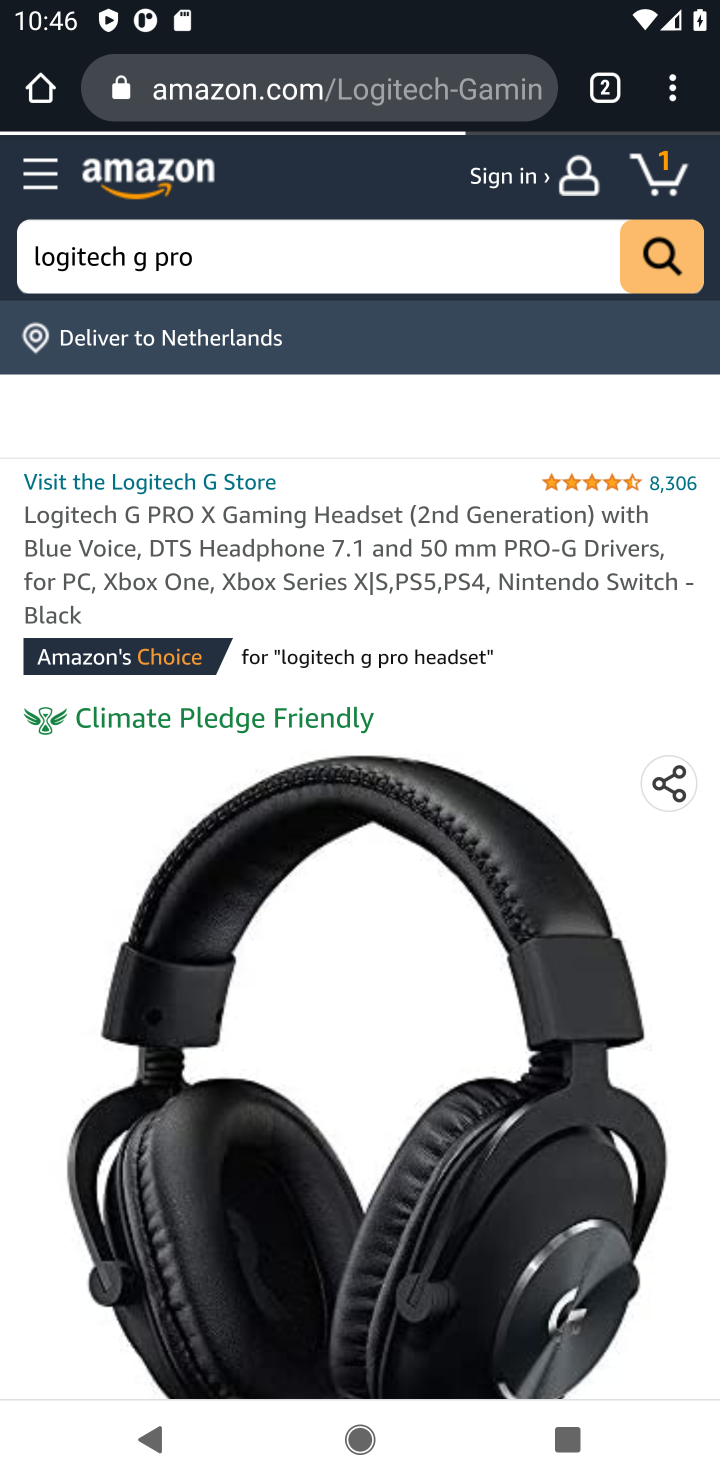
Step 33: drag from (485, 741) to (532, 327)
Your task to perform on an android device: Add logitech g pro to the cart on amazon.com Image 34: 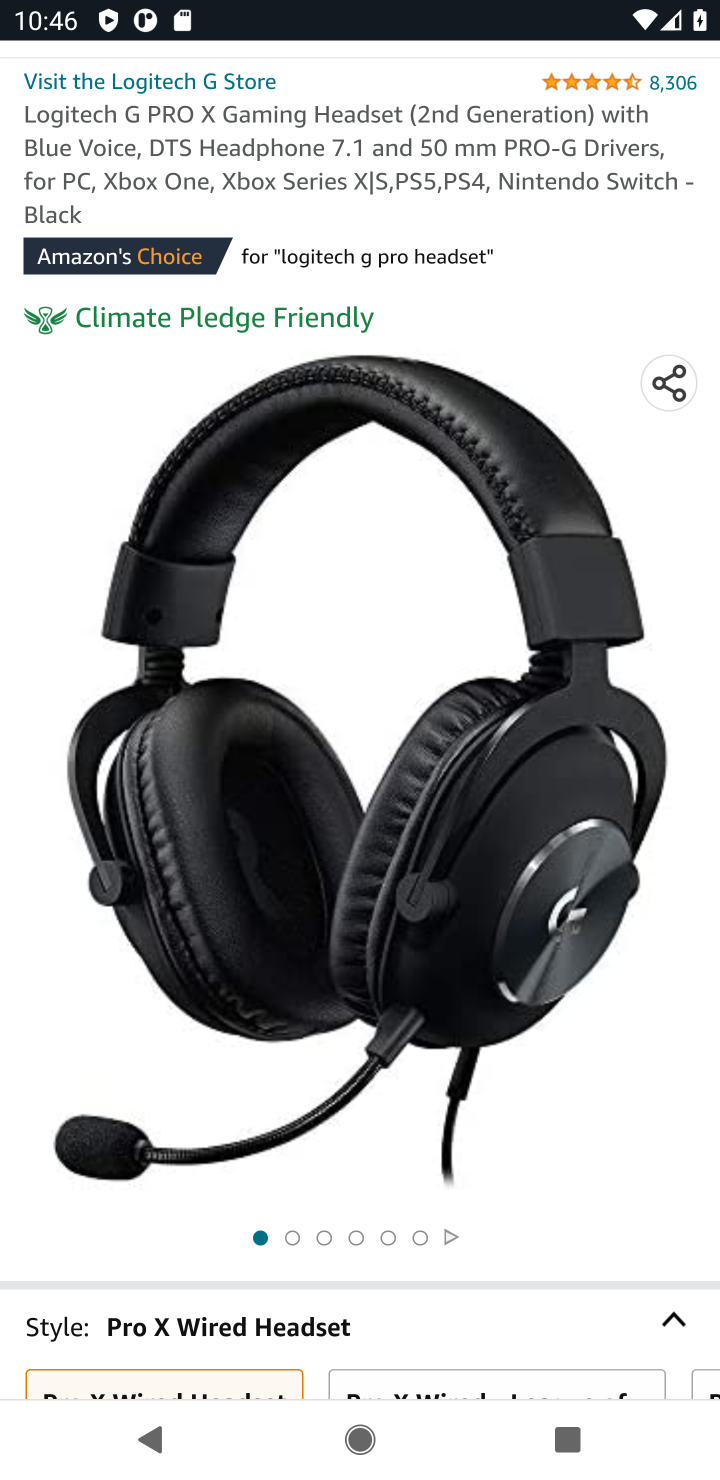
Step 34: drag from (499, 910) to (508, 445)
Your task to perform on an android device: Add logitech g pro to the cart on amazon.com Image 35: 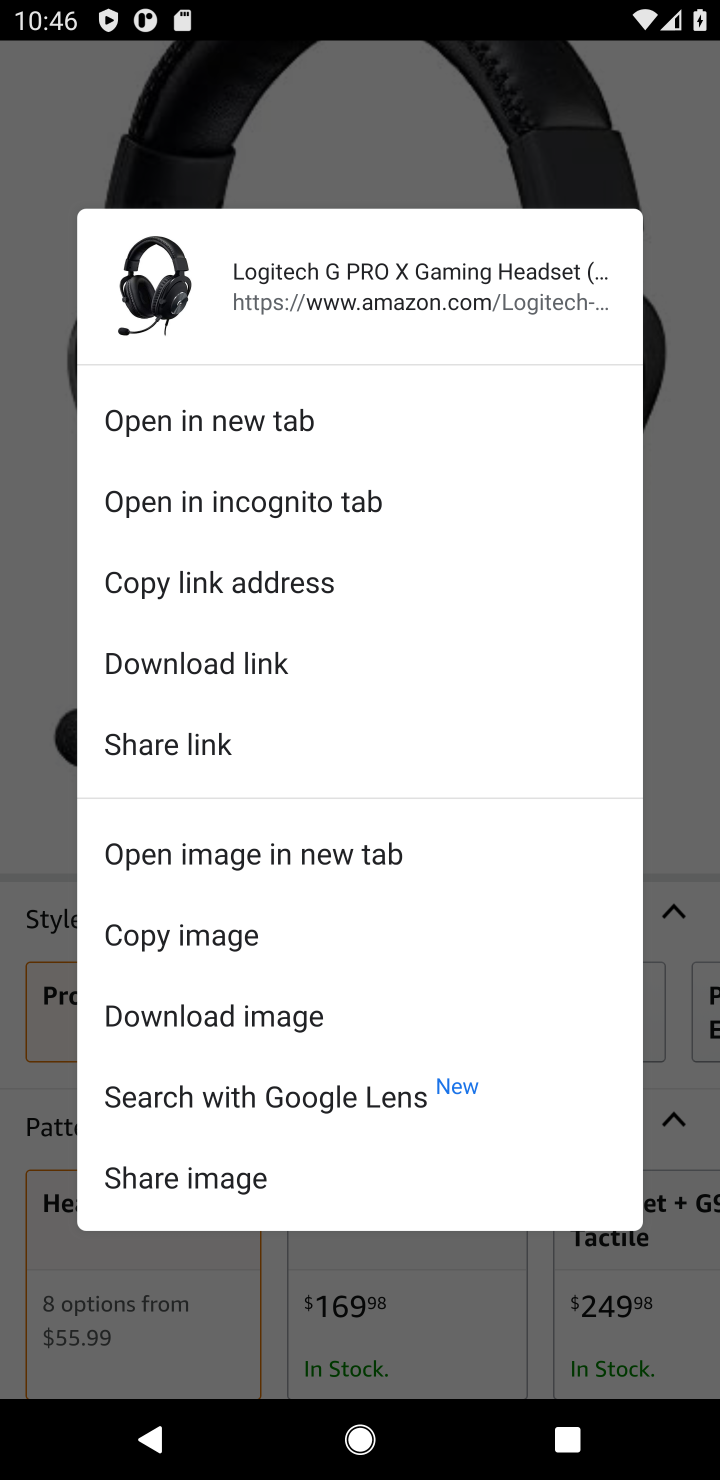
Step 35: click (678, 706)
Your task to perform on an android device: Add logitech g pro to the cart on amazon.com Image 36: 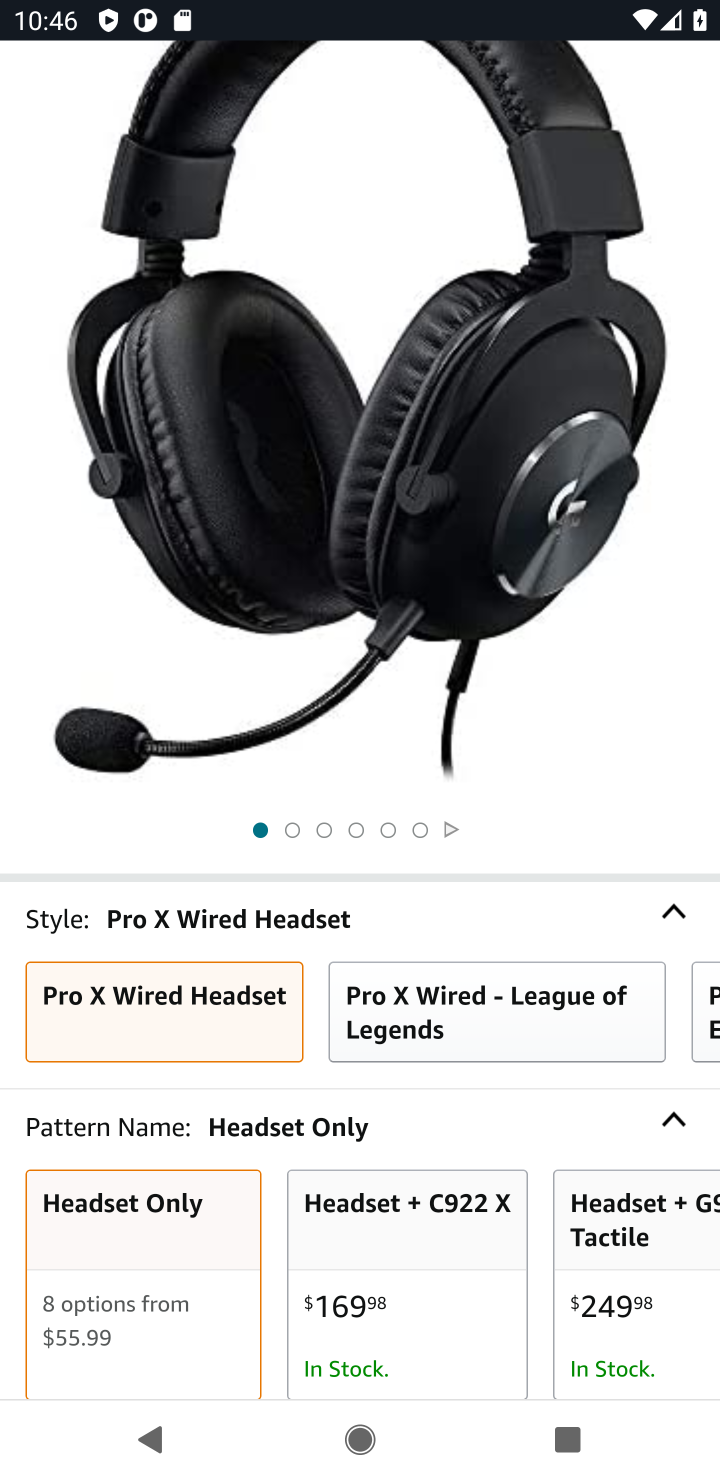
Step 36: drag from (482, 856) to (499, 297)
Your task to perform on an android device: Add logitech g pro to the cart on amazon.com Image 37: 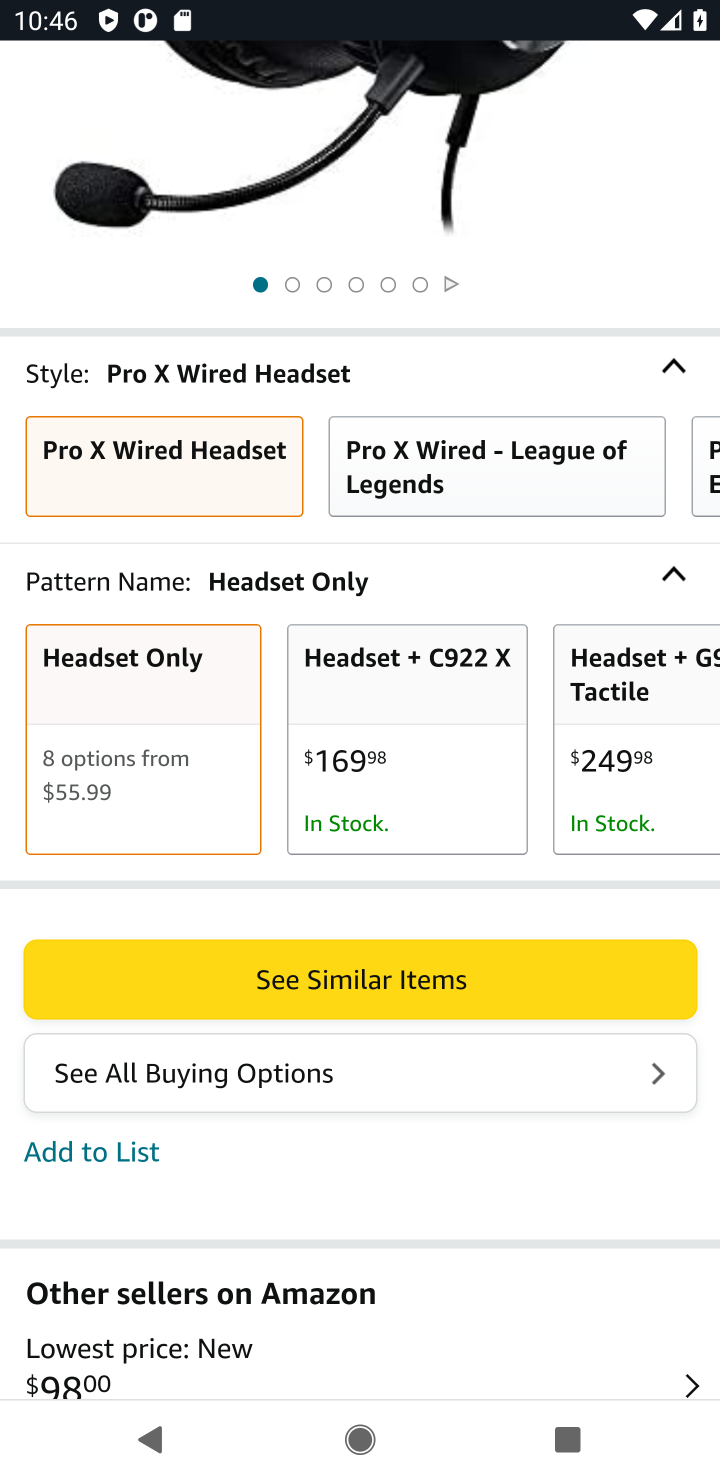
Step 37: press back button
Your task to perform on an android device: Add logitech g pro to the cart on amazon.com Image 38: 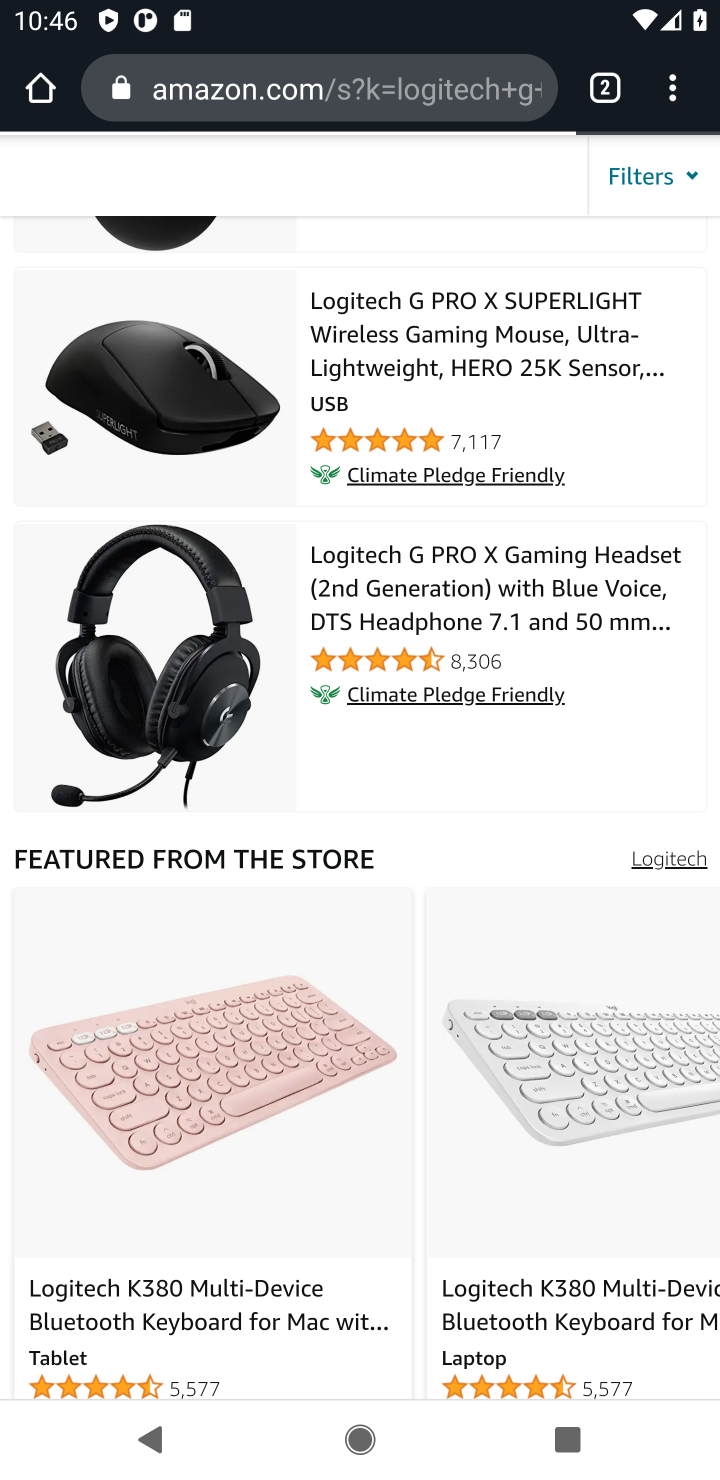
Step 38: drag from (527, 757) to (562, 1136)
Your task to perform on an android device: Add logitech g pro to the cart on amazon.com Image 39: 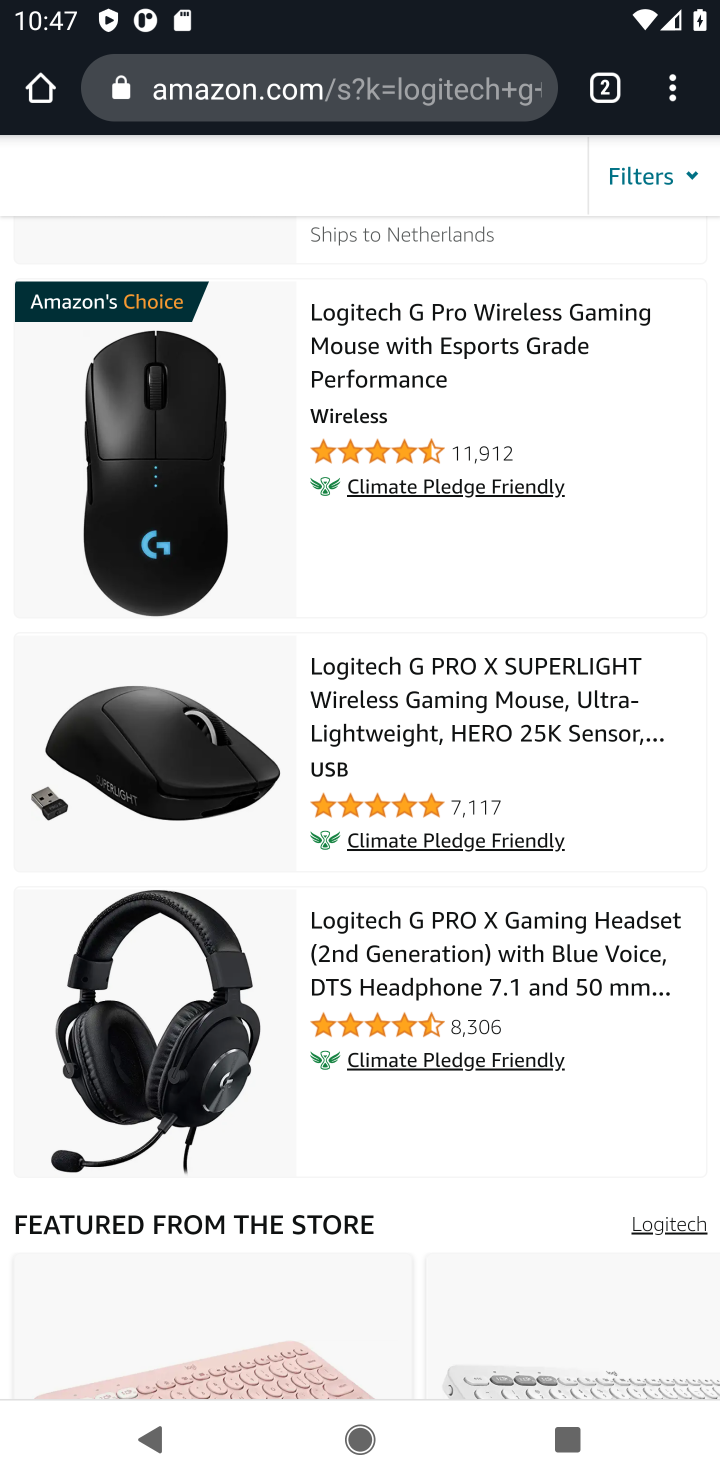
Step 39: drag from (378, 585) to (589, 1397)
Your task to perform on an android device: Add logitech g pro to the cart on amazon.com Image 40: 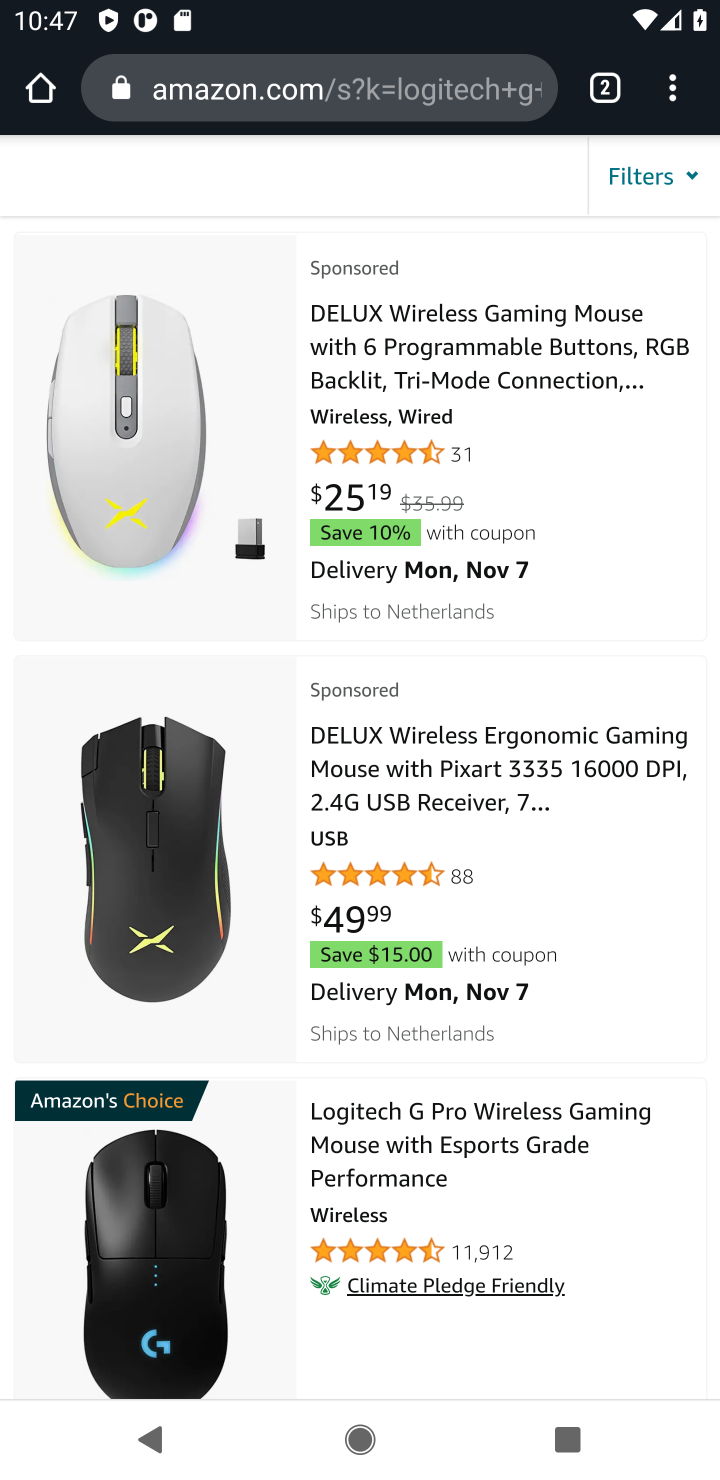
Step 40: drag from (478, 397) to (507, 1233)
Your task to perform on an android device: Add logitech g pro to the cart on amazon.com Image 41: 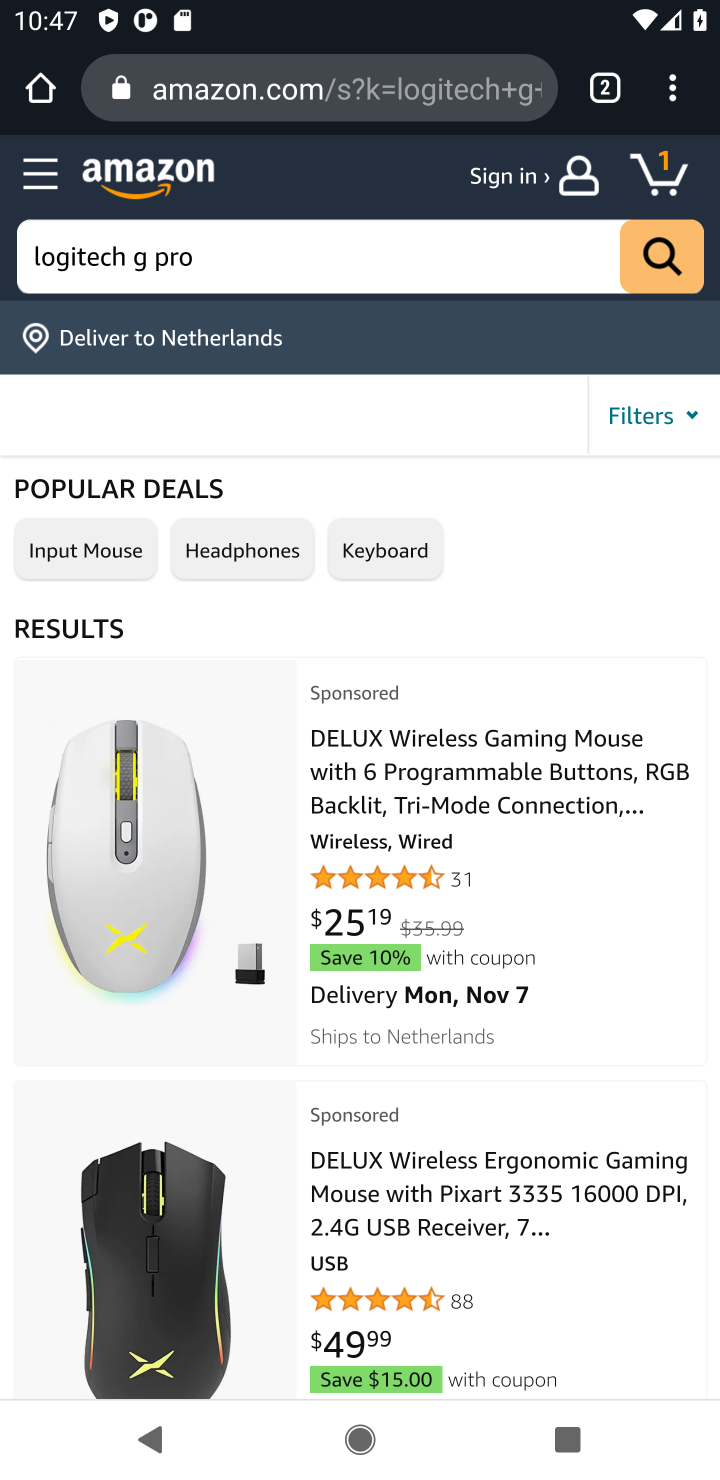
Step 41: drag from (548, 1170) to (538, 1035)
Your task to perform on an android device: Add logitech g pro to the cart on amazon.com Image 42: 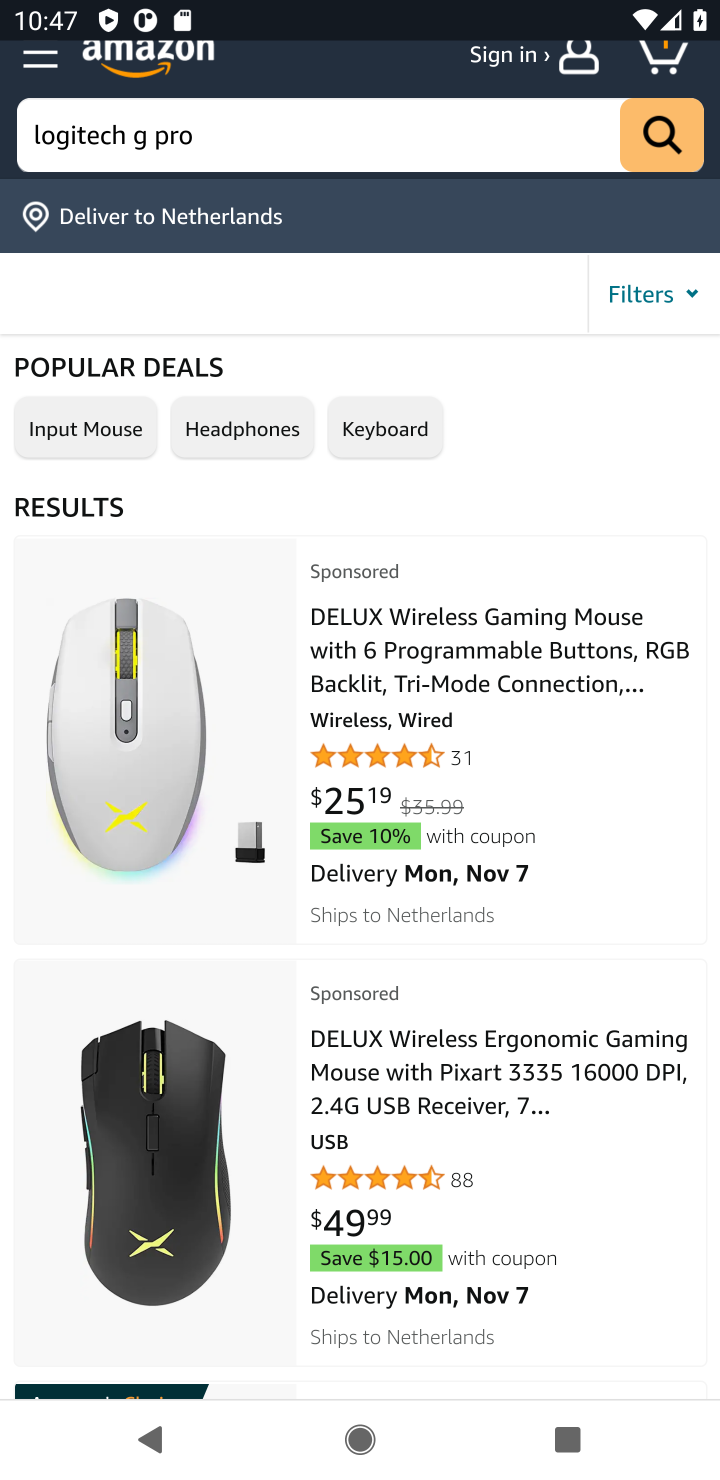
Step 42: drag from (551, 970) to (537, 820)
Your task to perform on an android device: Add logitech g pro to the cart on amazon.com Image 43: 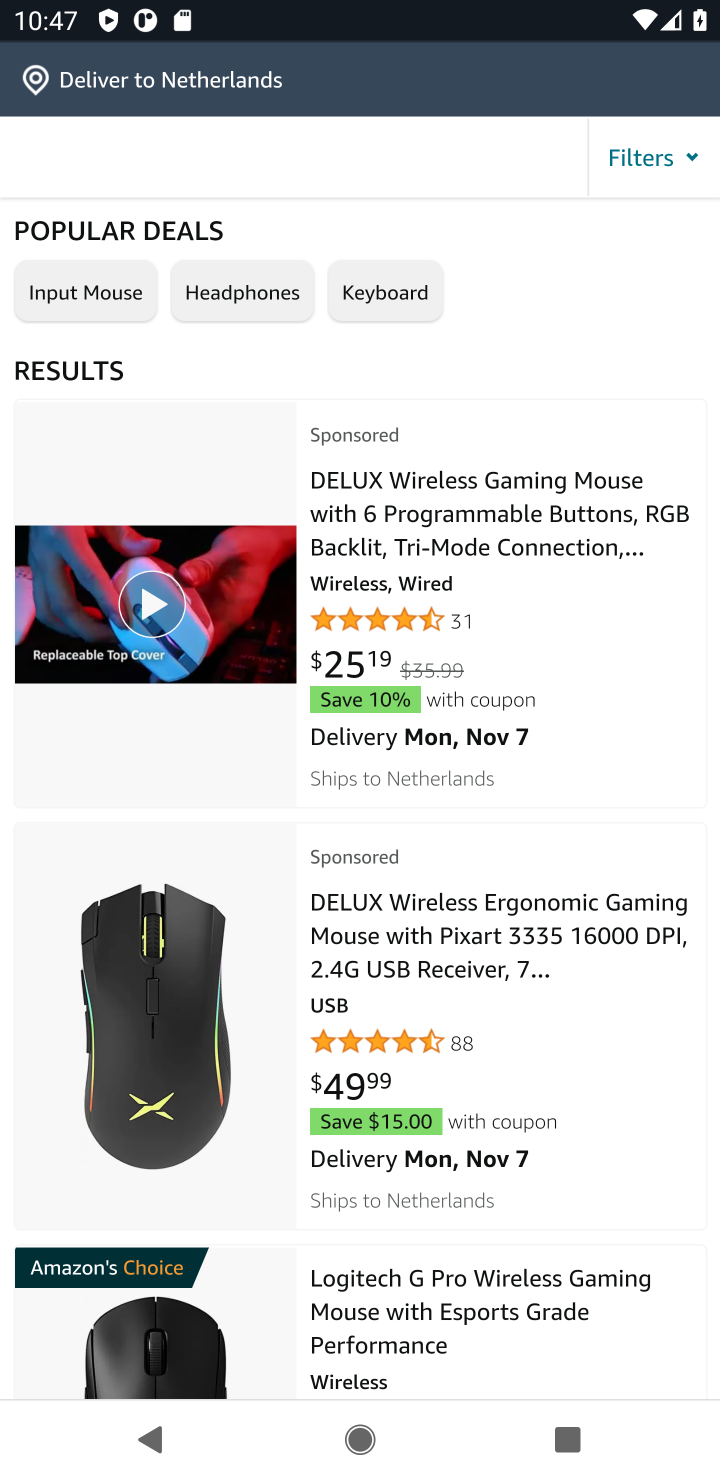
Step 43: drag from (613, 1100) to (627, 744)
Your task to perform on an android device: Add logitech g pro to the cart on amazon.com Image 44: 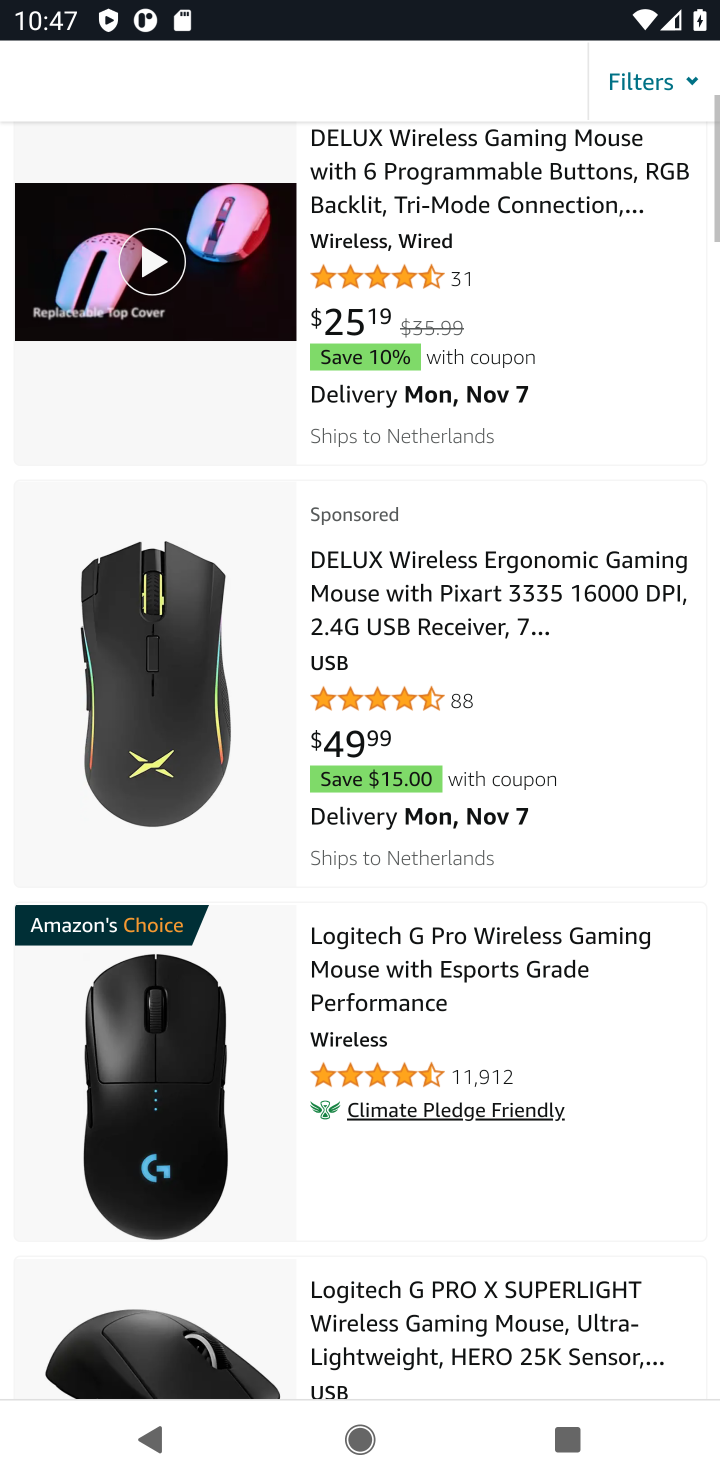
Step 44: drag from (576, 1101) to (525, 603)
Your task to perform on an android device: Add logitech g pro to the cart on amazon.com Image 45: 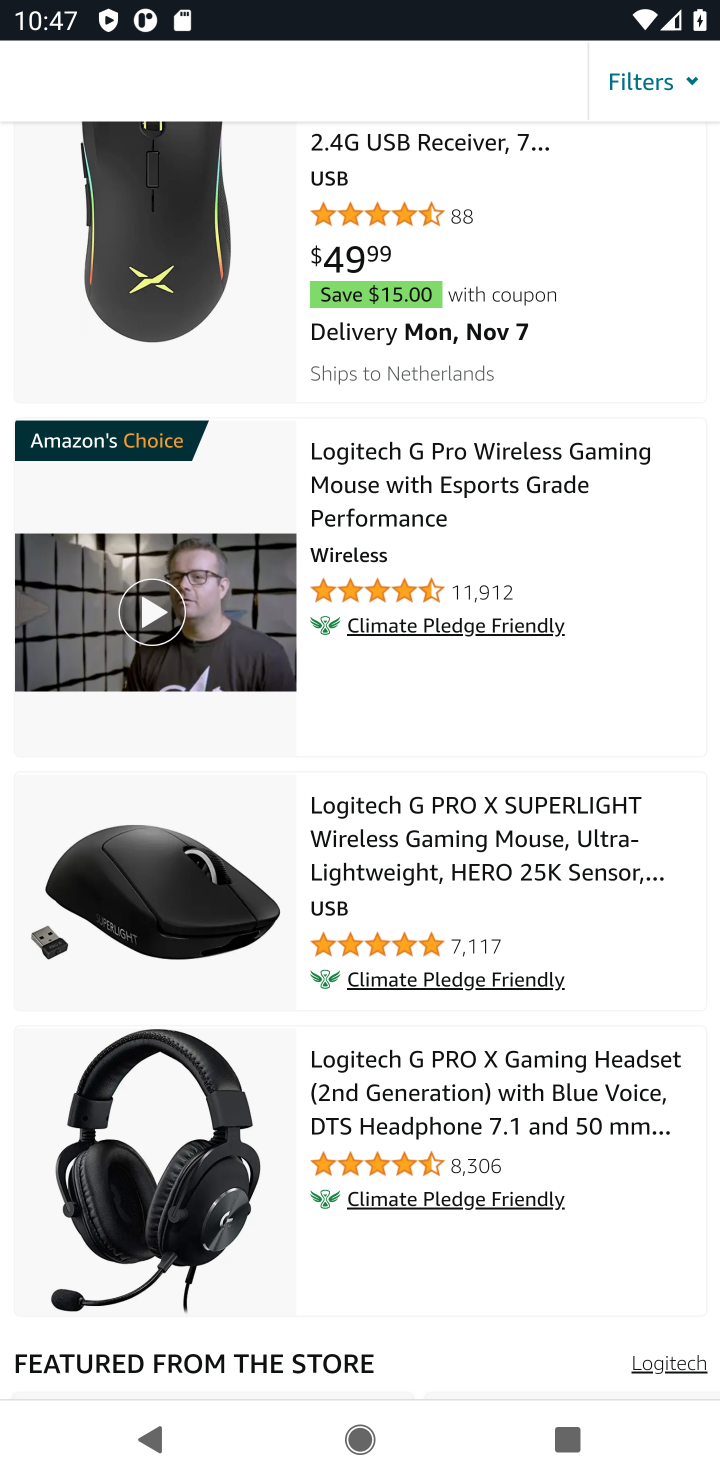
Step 45: drag from (537, 830) to (476, 147)
Your task to perform on an android device: Add logitech g pro to the cart on amazon.com Image 46: 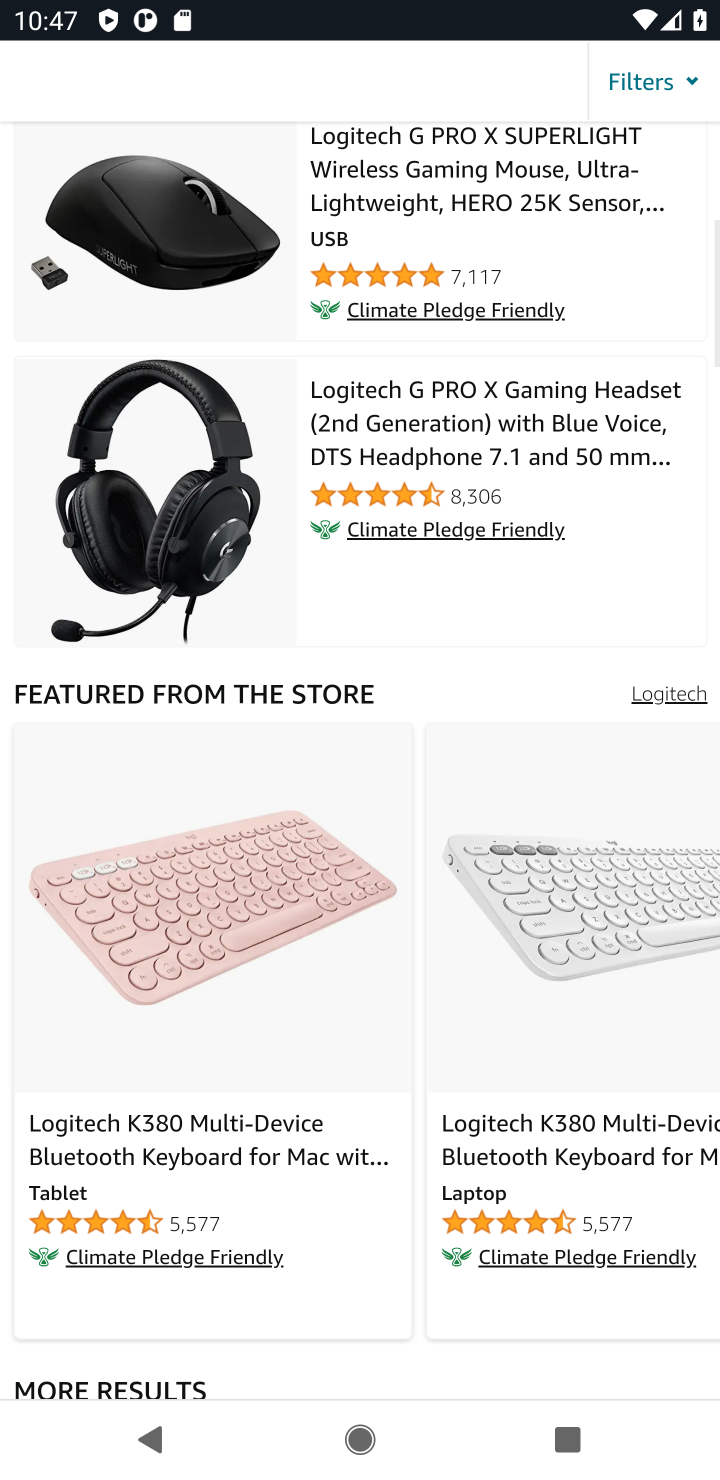
Step 46: drag from (531, 1076) to (517, 196)
Your task to perform on an android device: Add logitech g pro to the cart on amazon.com Image 47: 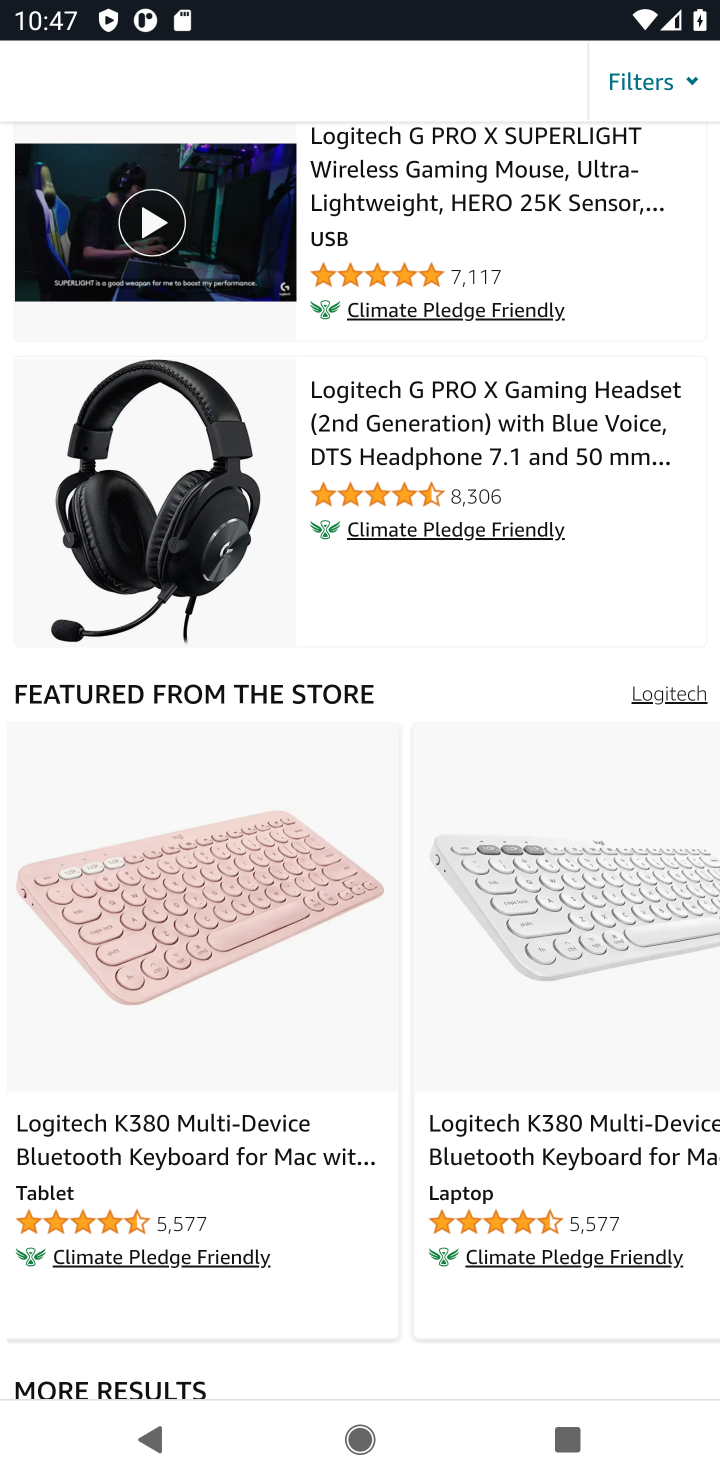
Step 47: drag from (323, 817) to (435, 381)
Your task to perform on an android device: Add logitech g pro to the cart on amazon.com Image 48: 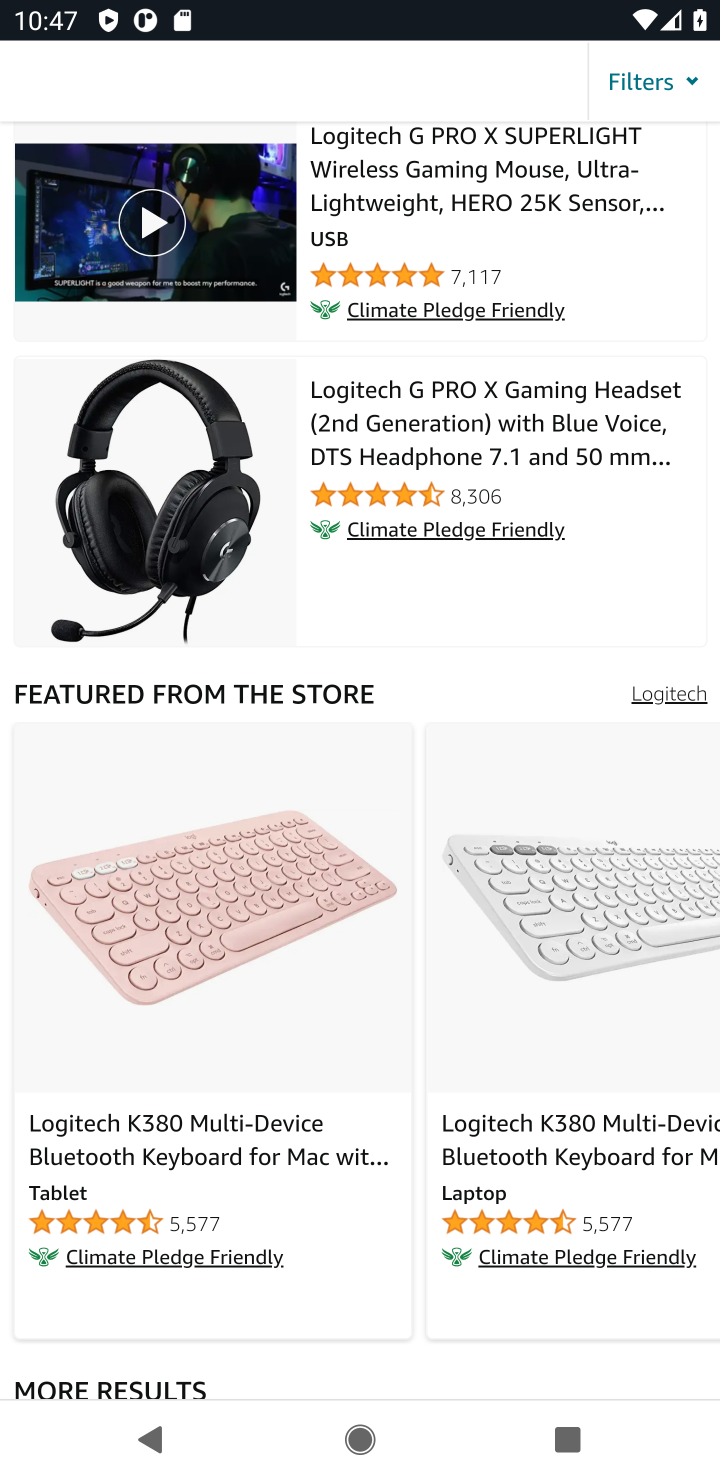
Step 48: click (183, 1379)
Your task to perform on an android device: Add logitech g pro to the cart on amazon.com Image 49: 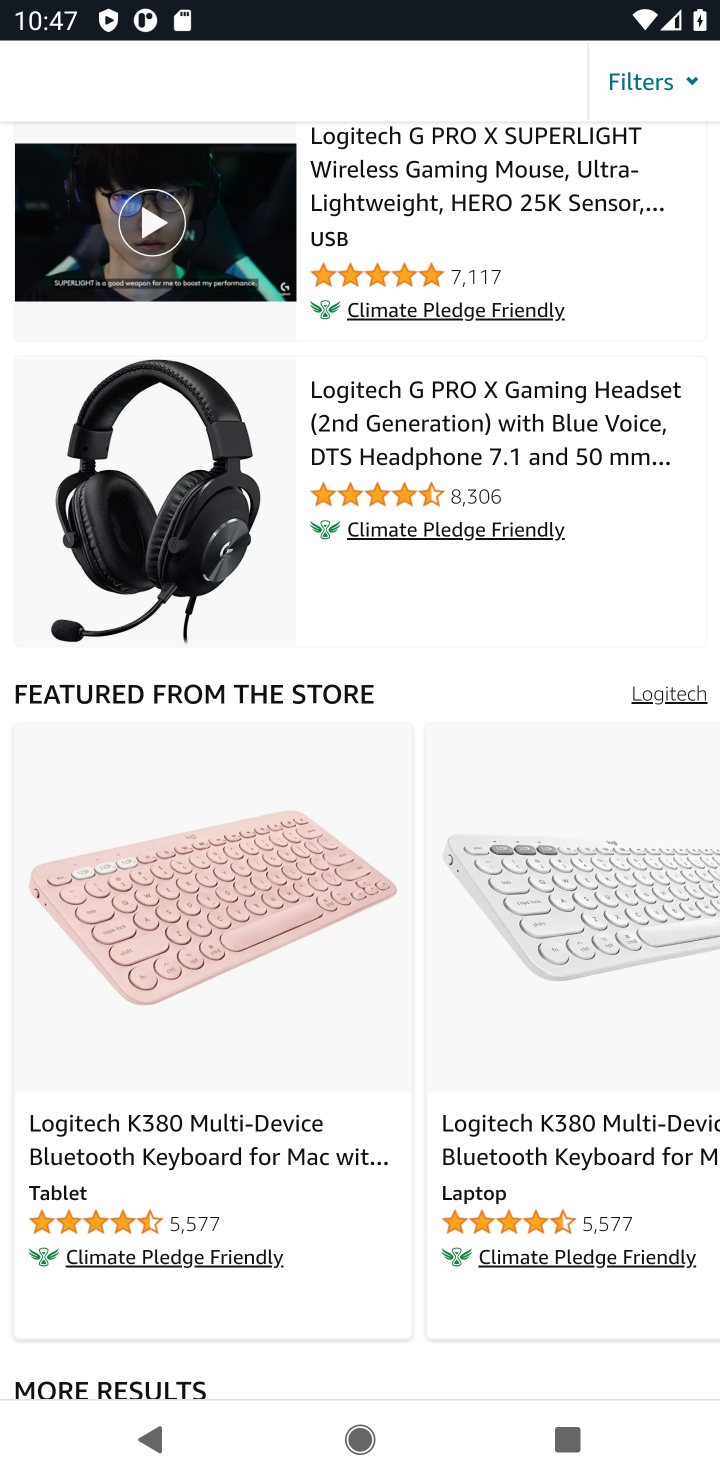
Step 49: click (195, 435)
Your task to perform on an android device: Add logitech g pro to the cart on amazon.com Image 50: 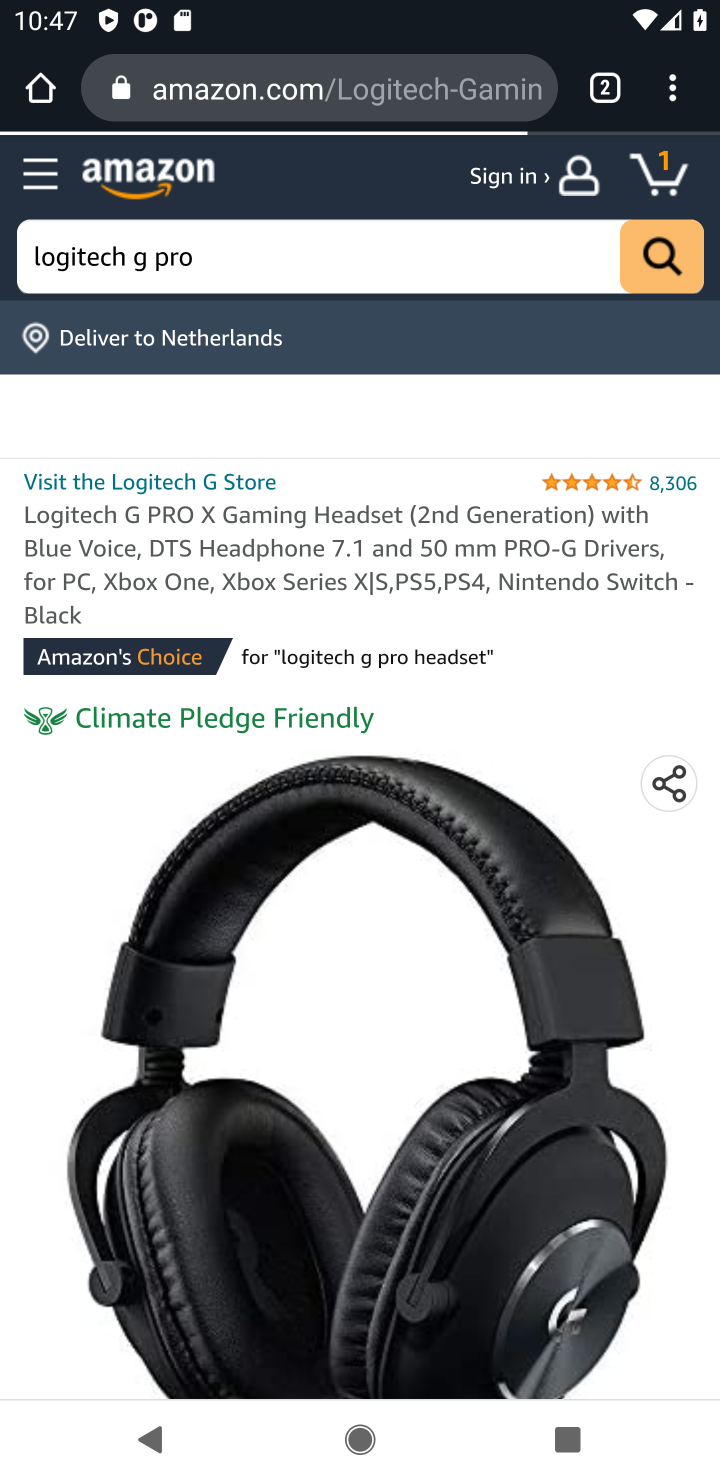
Step 50: drag from (484, 823) to (475, 169)
Your task to perform on an android device: Add logitech g pro to the cart on amazon.com Image 51: 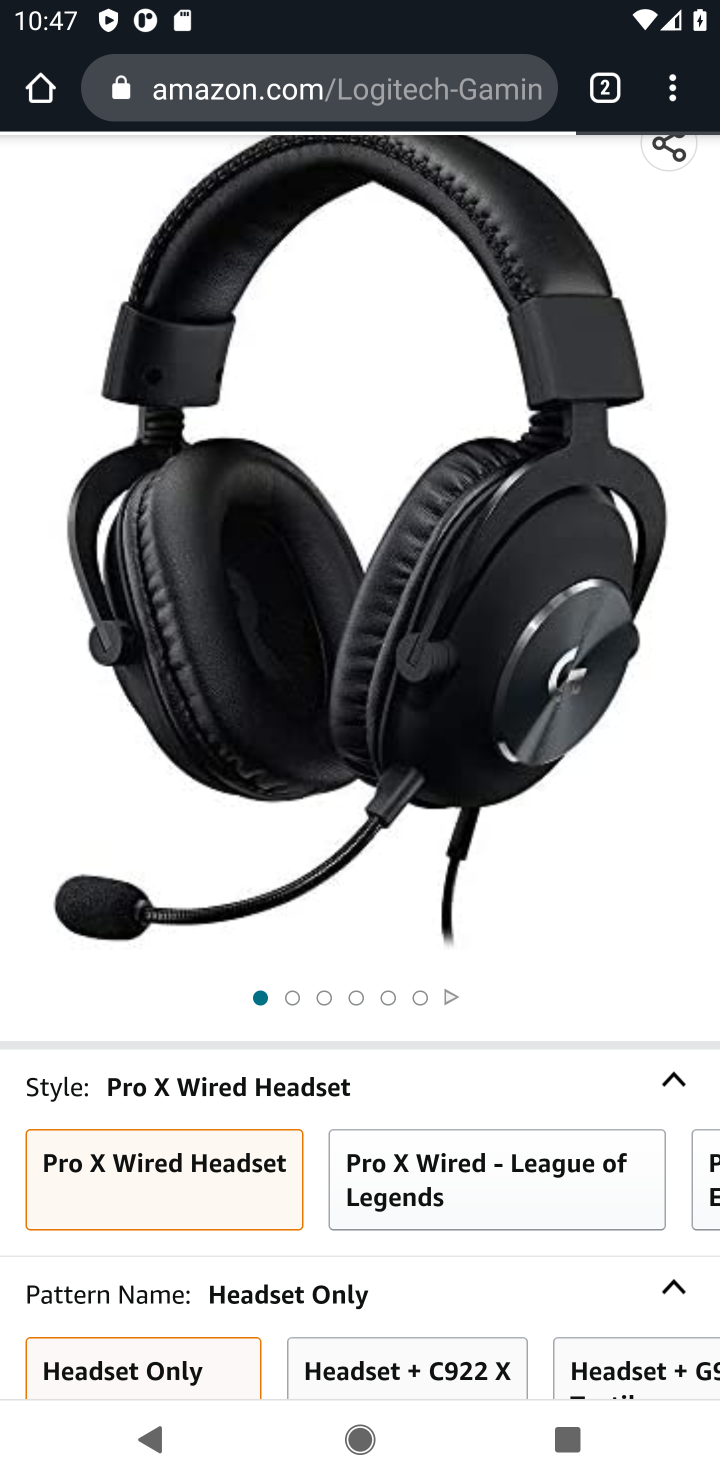
Step 51: drag from (481, 801) to (527, 266)
Your task to perform on an android device: Add logitech g pro to the cart on amazon.com Image 52: 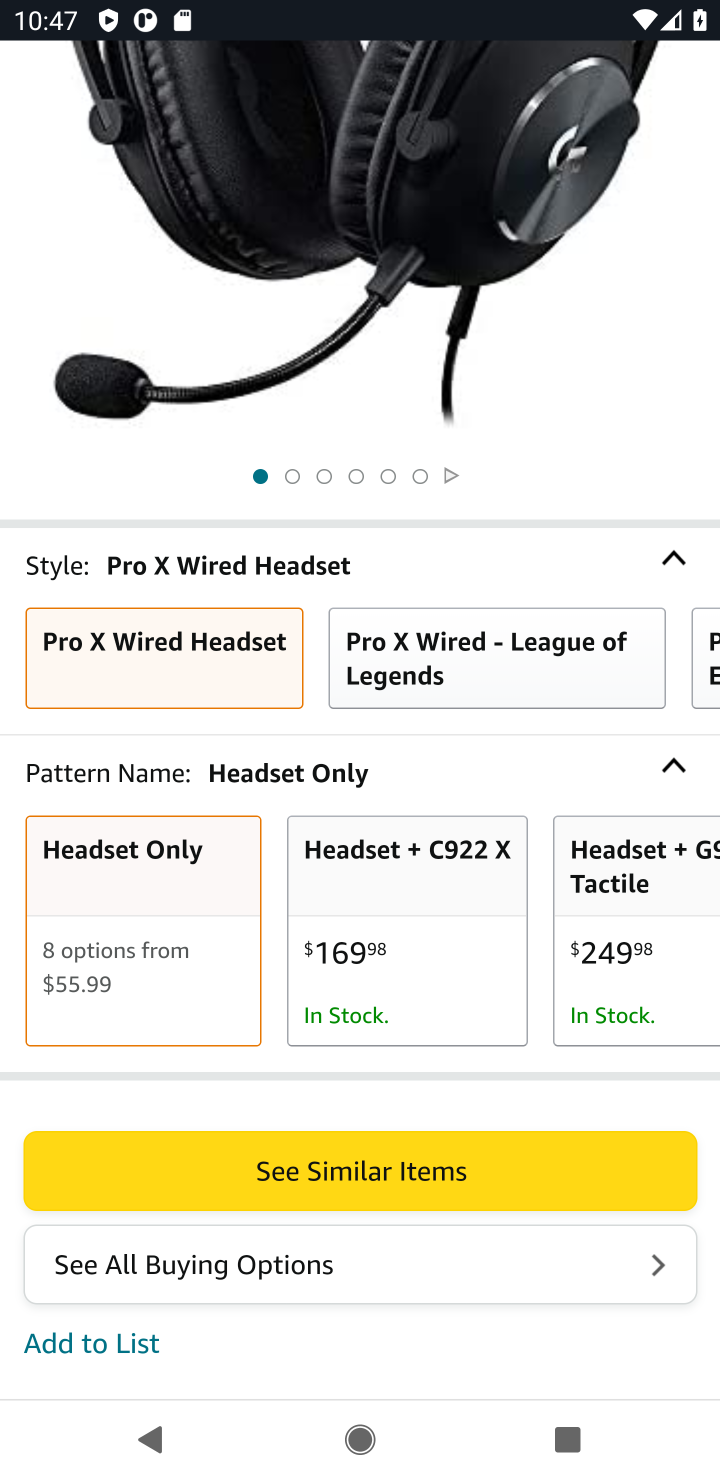
Step 52: drag from (465, 809) to (510, 447)
Your task to perform on an android device: Add logitech g pro to the cart on amazon.com Image 53: 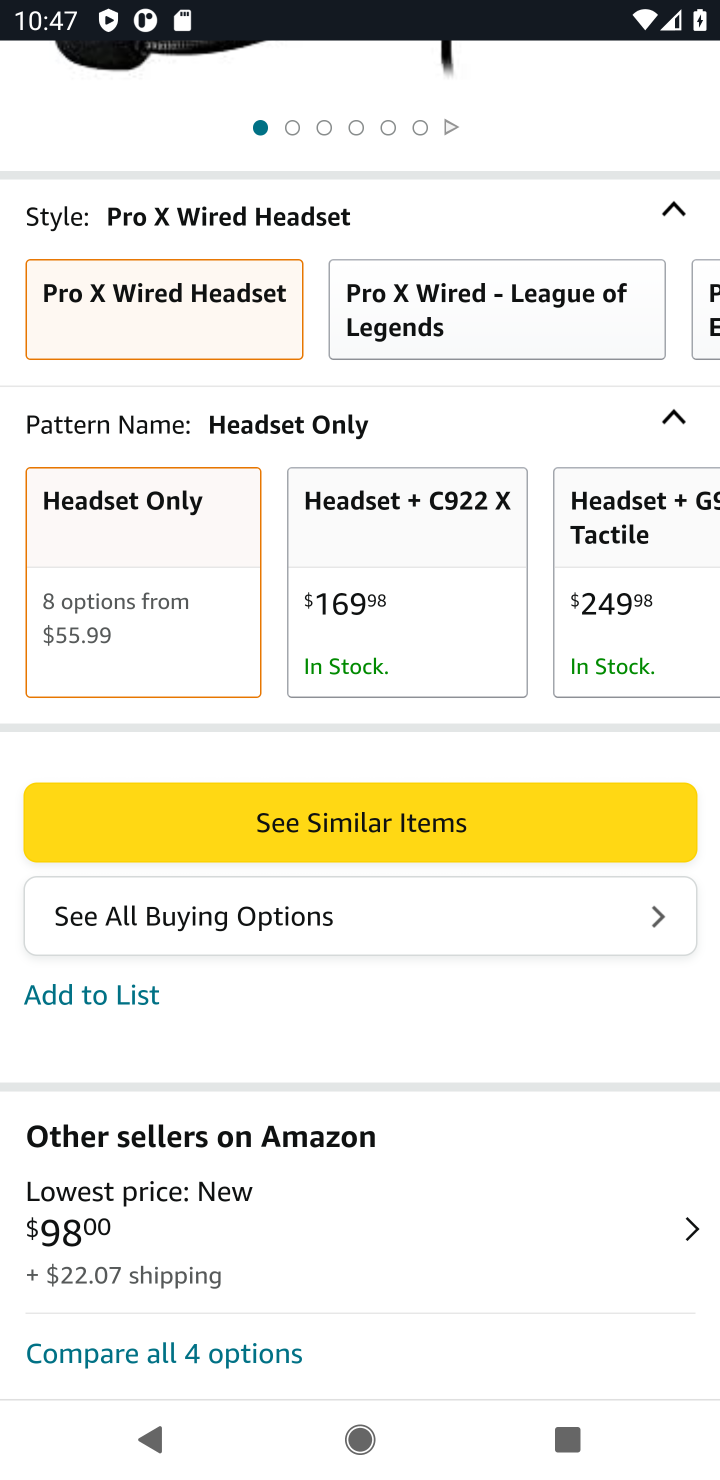
Step 53: click (106, 991)
Your task to perform on an android device: Add logitech g pro to the cart on amazon.com Image 54: 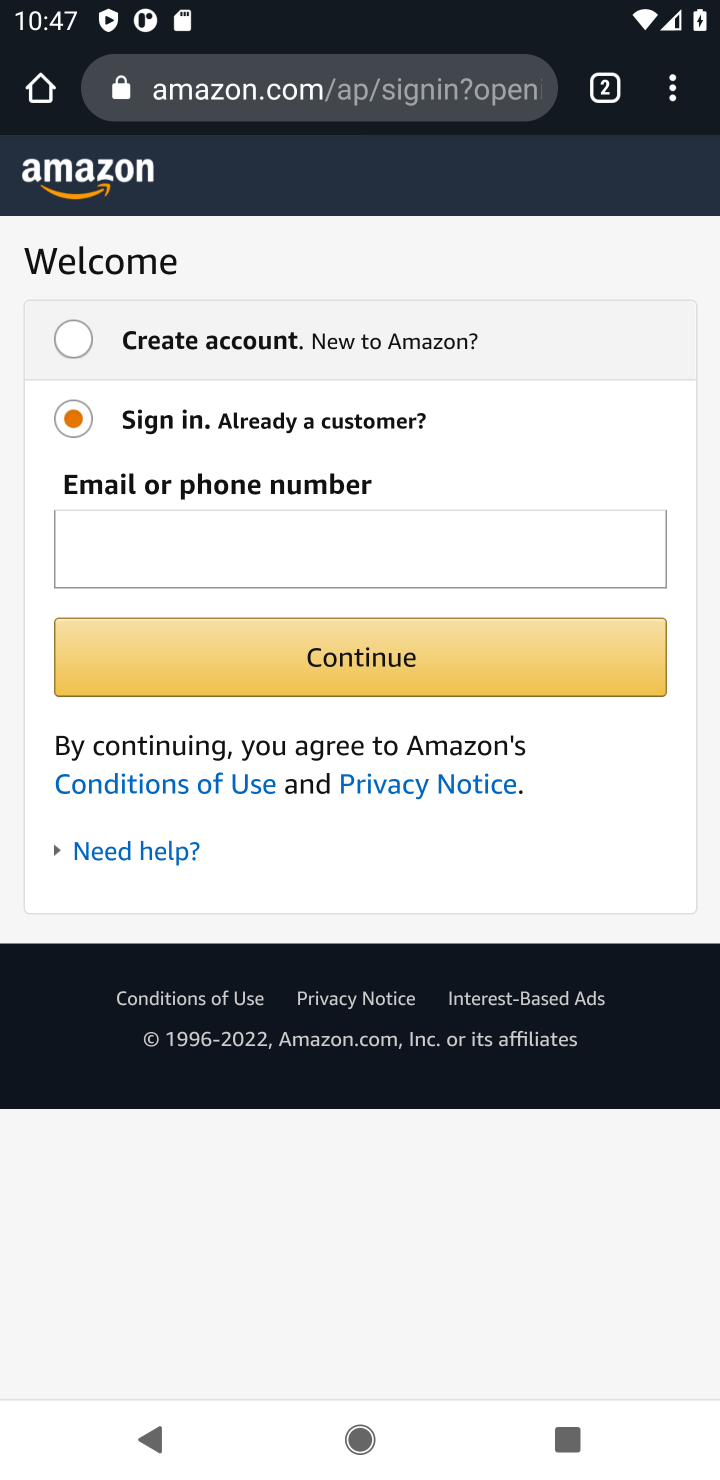
Step 54: task complete